Your task to perform on an android device: change timer sound Image 0: 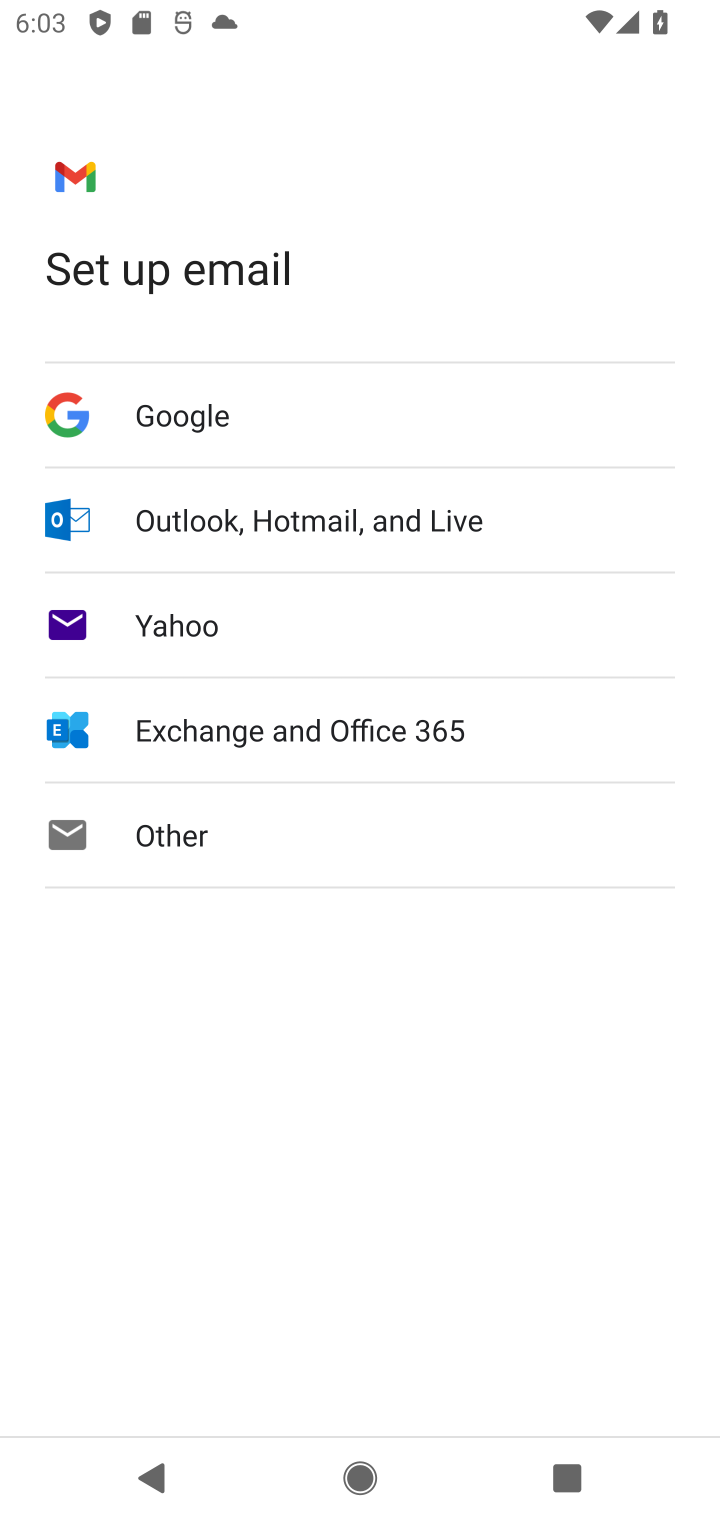
Step 0: press home button
Your task to perform on an android device: change timer sound Image 1: 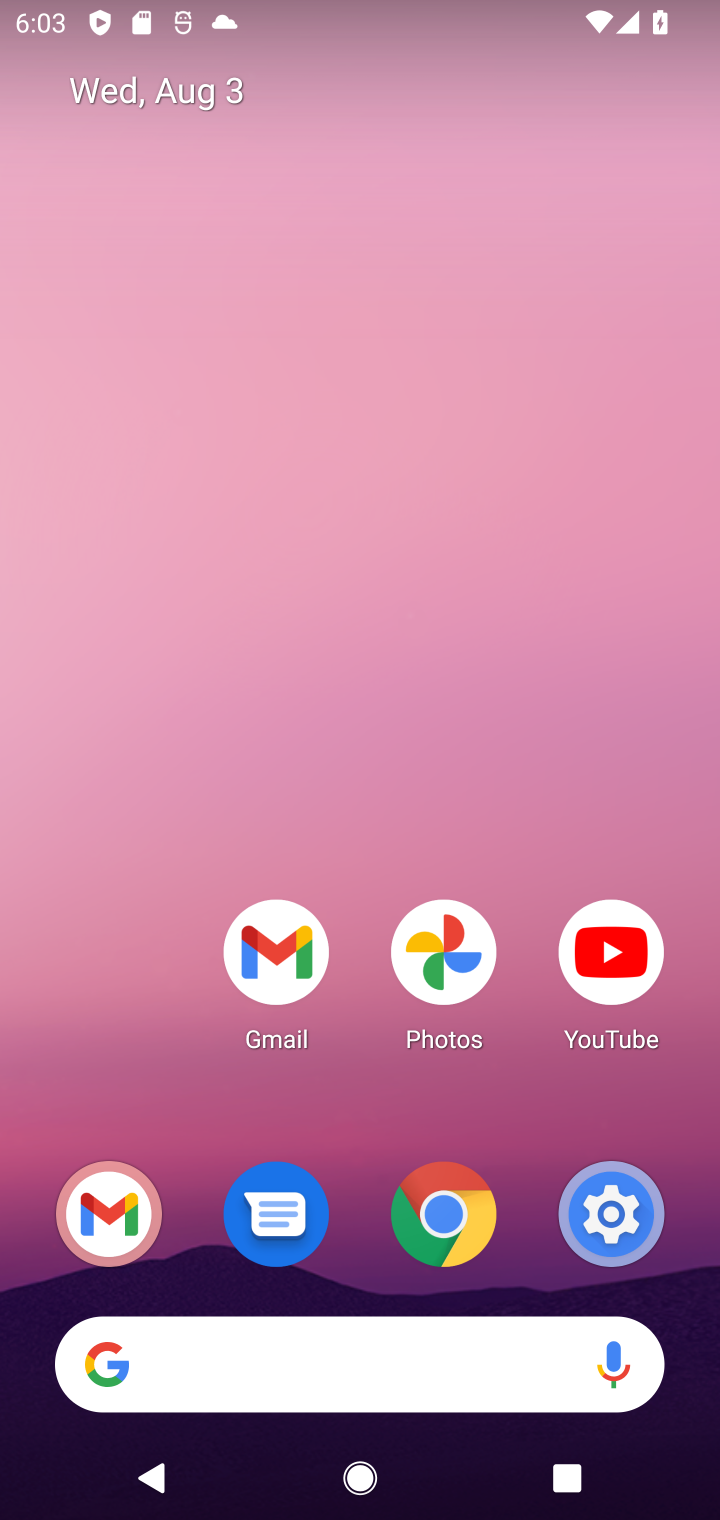
Step 1: drag from (131, 780) to (281, 1)
Your task to perform on an android device: change timer sound Image 2: 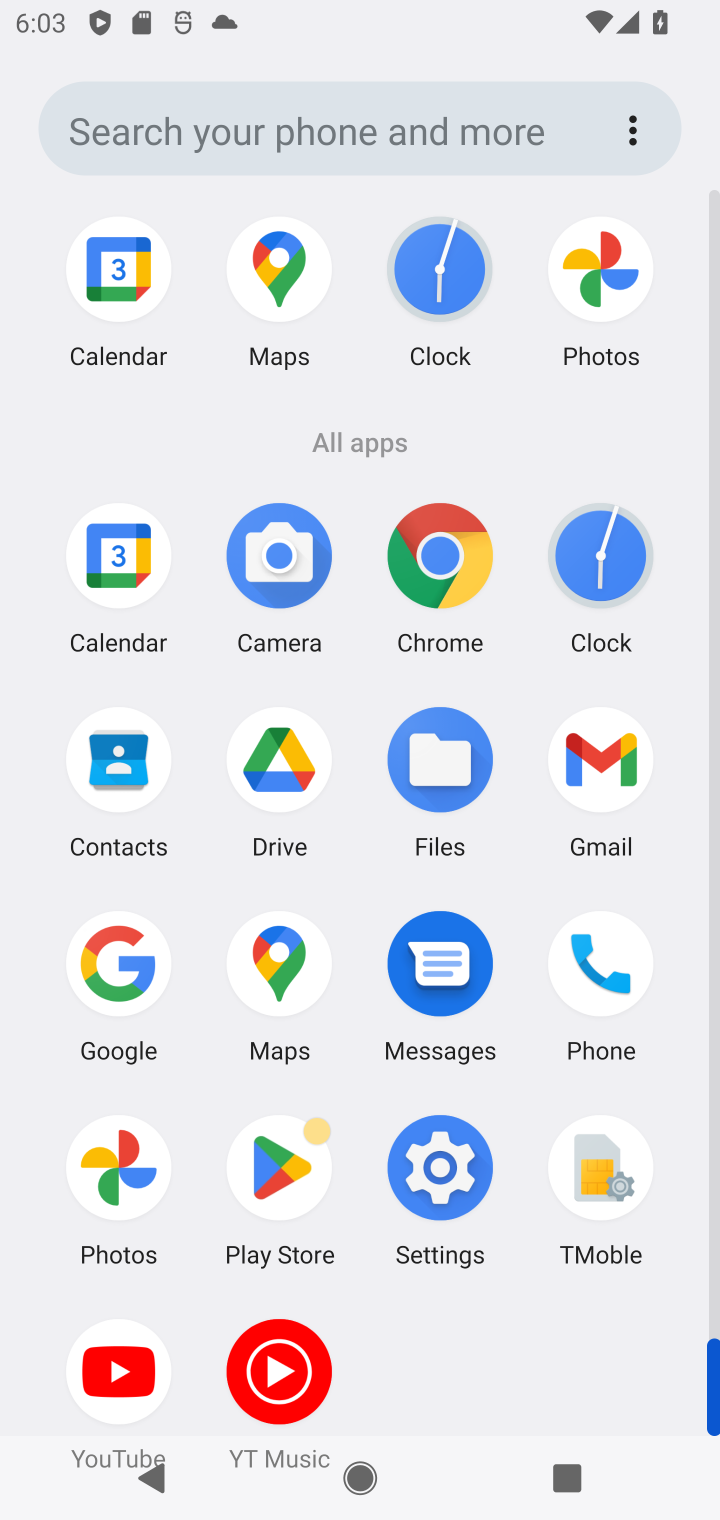
Step 2: click (434, 1187)
Your task to perform on an android device: change timer sound Image 3: 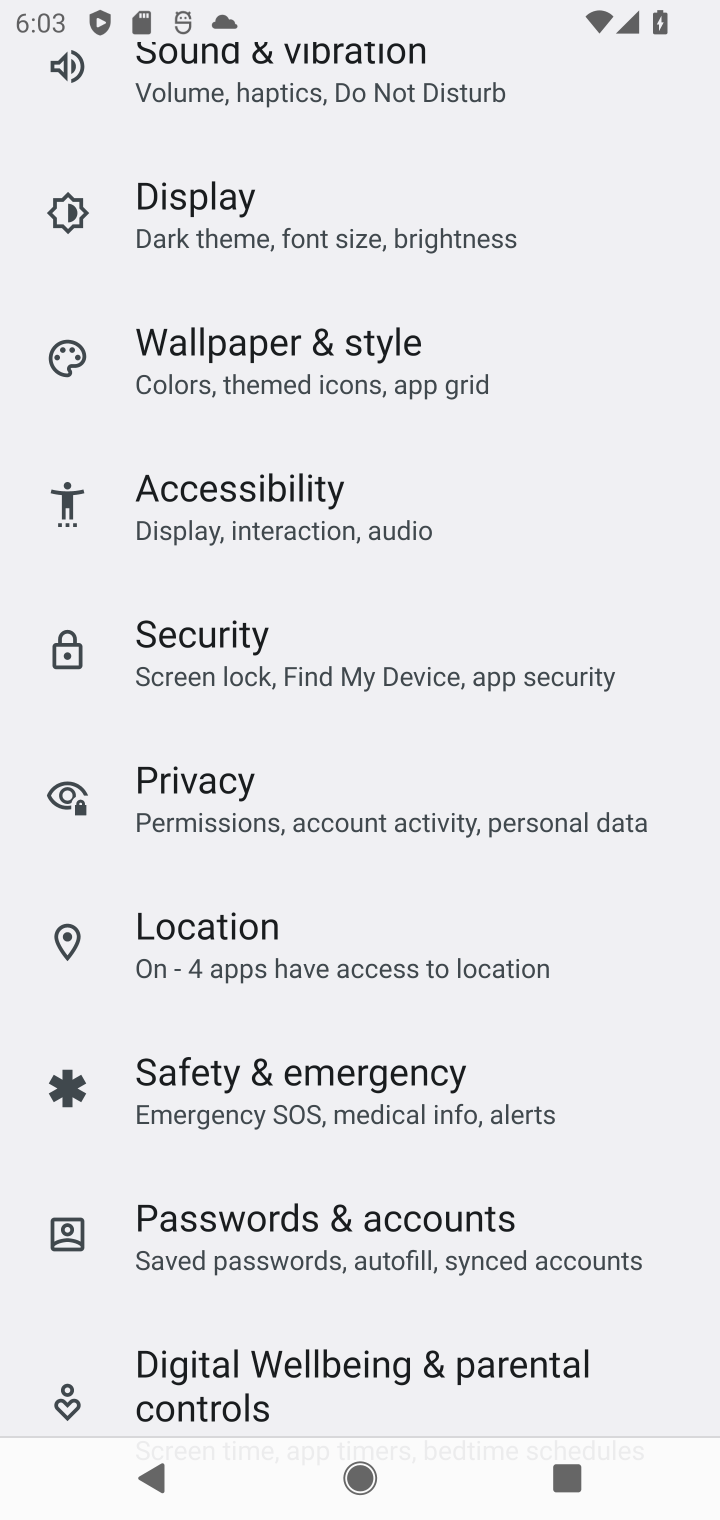
Step 3: drag from (468, 632) to (453, 1355)
Your task to perform on an android device: change timer sound Image 4: 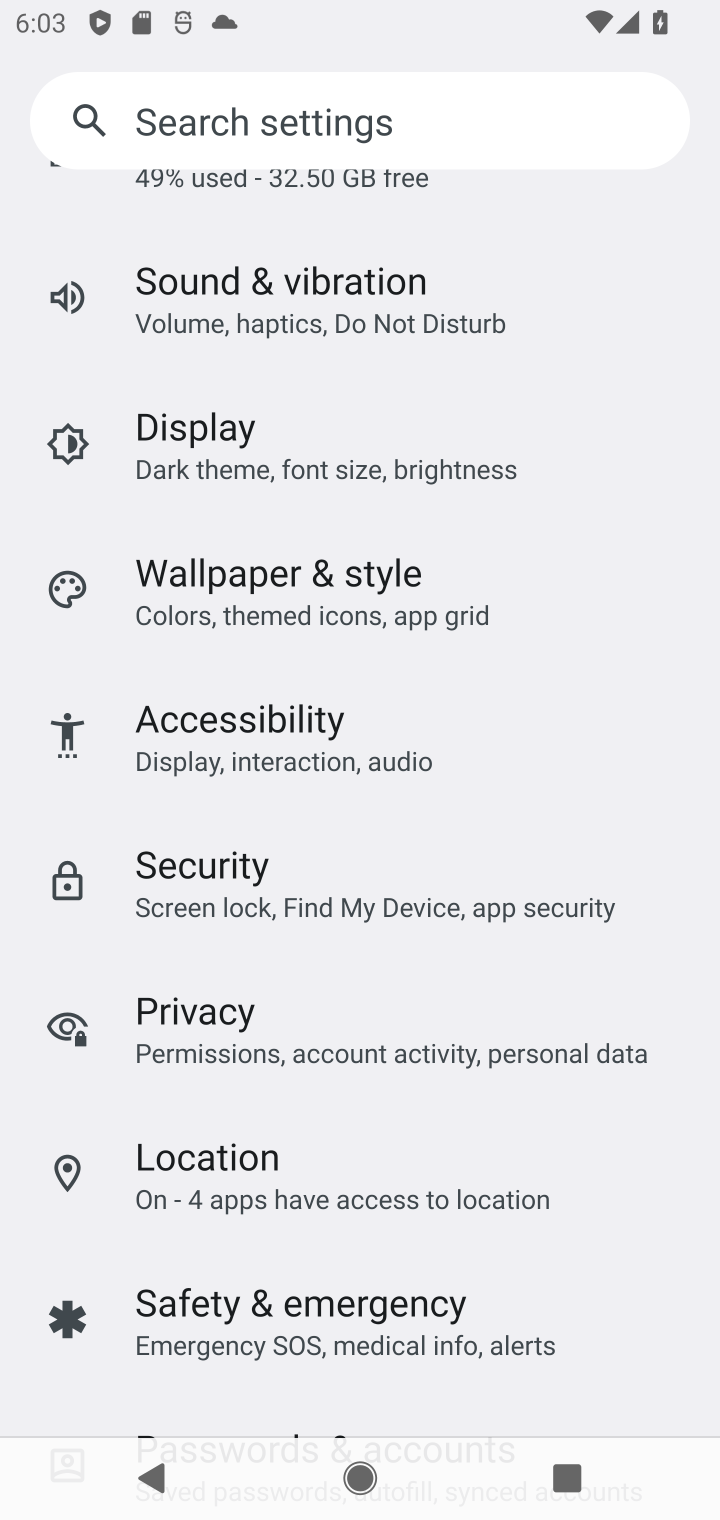
Step 4: drag from (473, 507) to (482, 1323)
Your task to perform on an android device: change timer sound Image 5: 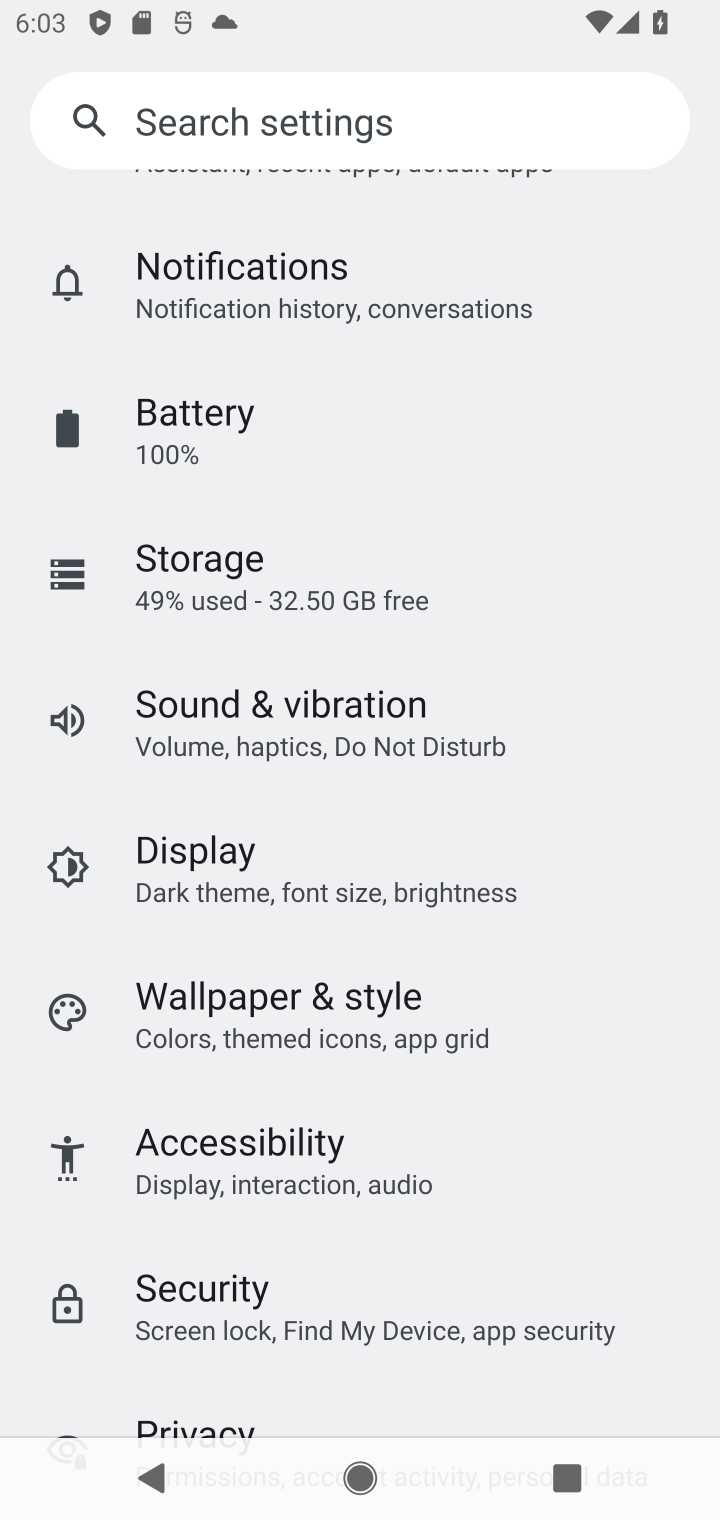
Step 5: drag from (338, 1022) to (449, 375)
Your task to perform on an android device: change timer sound Image 6: 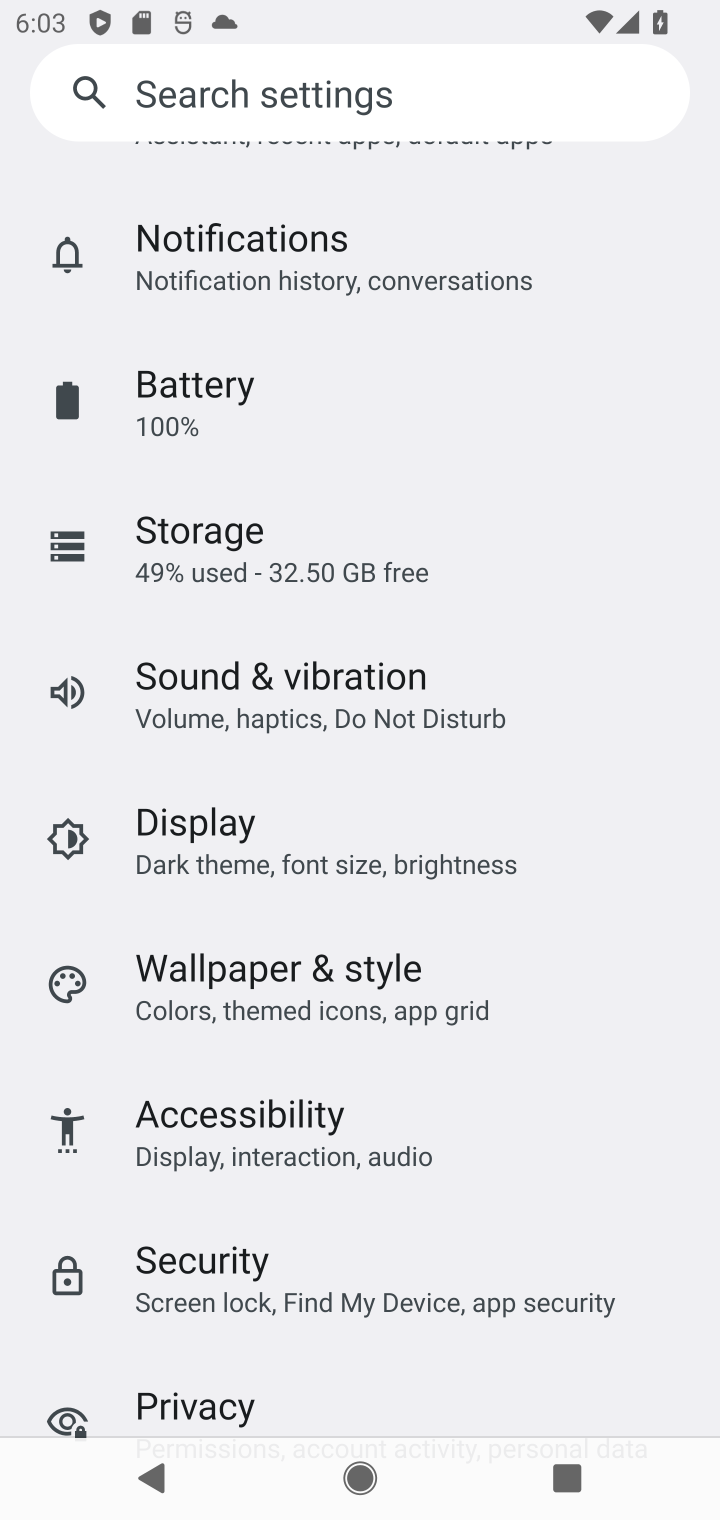
Step 6: drag from (331, 1287) to (530, 237)
Your task to perform on an android device: change timer sound Image 7: 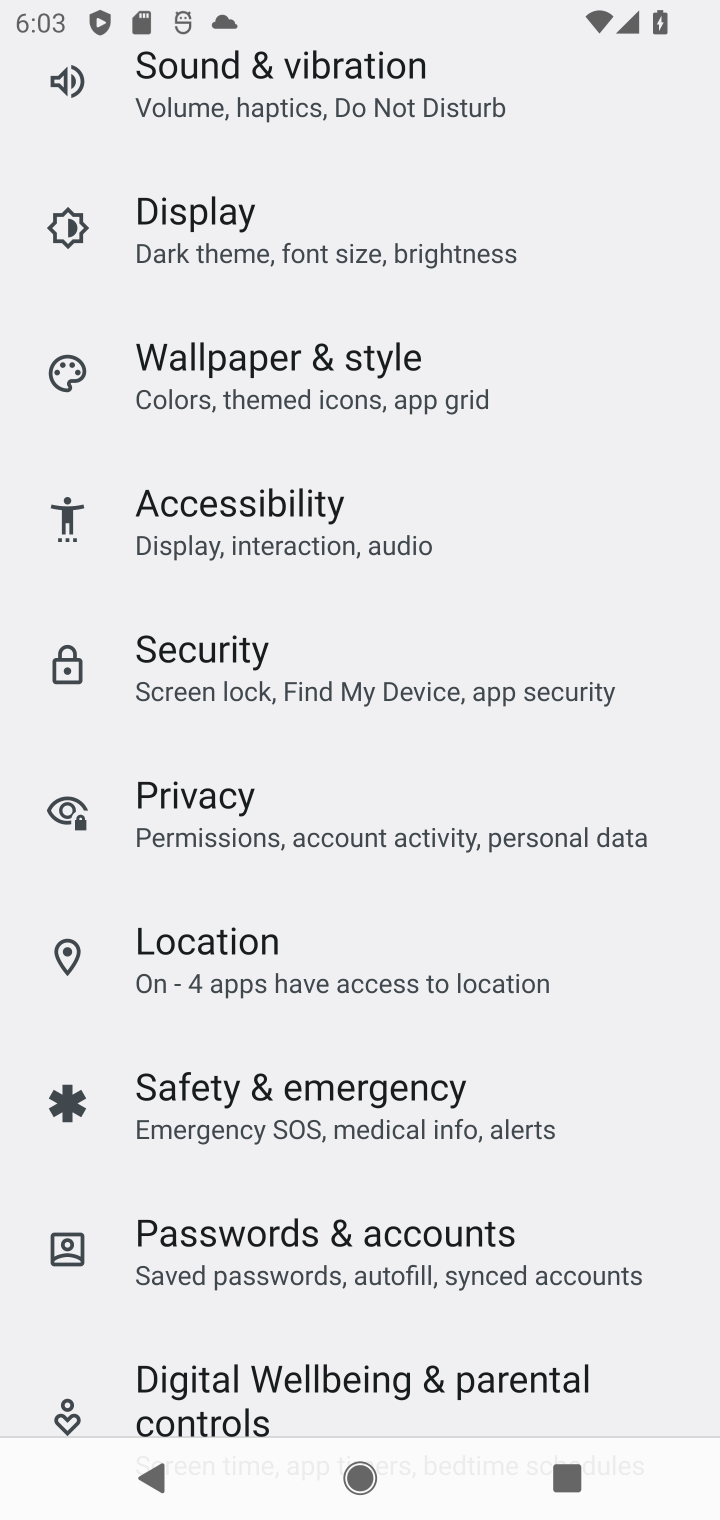
Step 7: drag from (267, 1204) to (445, 120)
Your task to perform on an android device: change timer sound Image 8: 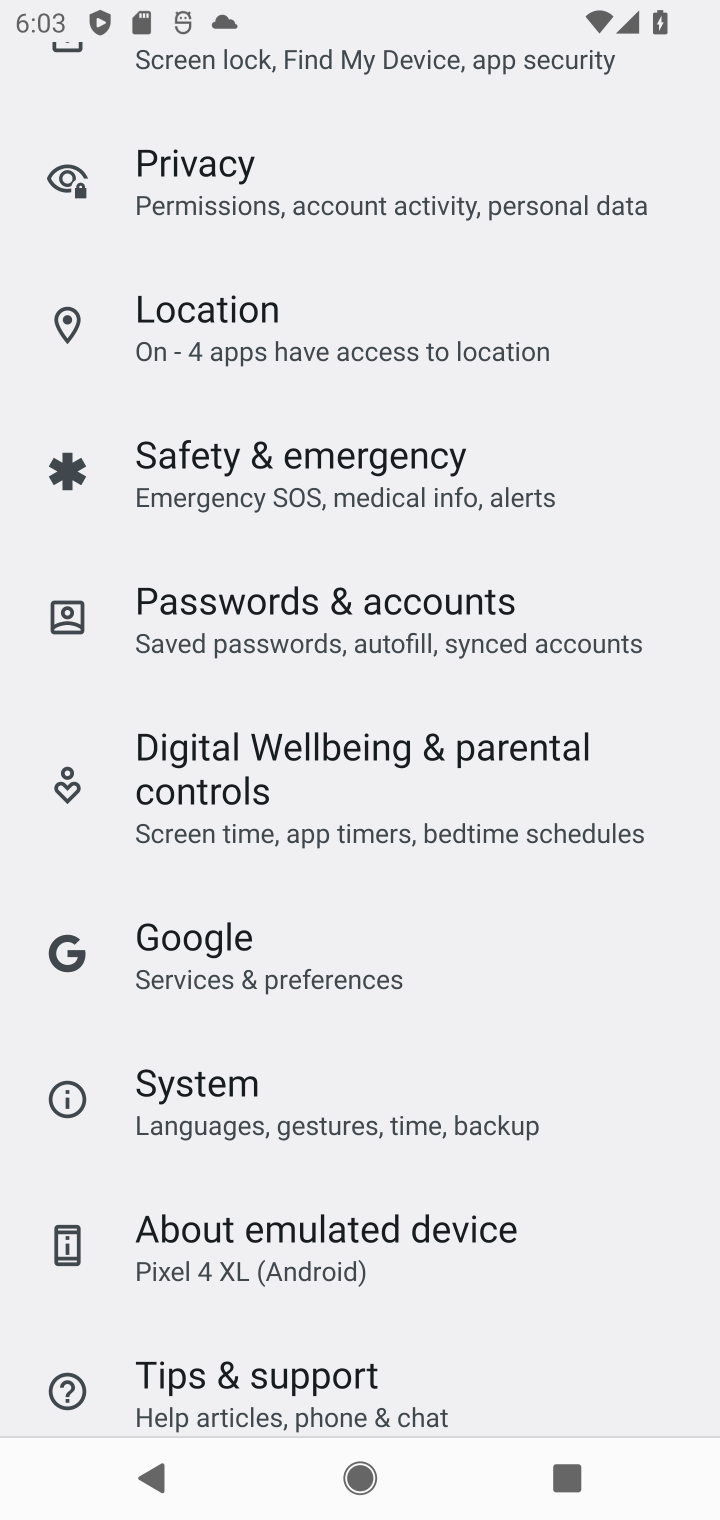
Step 8: drag from (475, 928) to (509, 1446)
Your task to perform on an android device: change timer sound Image 9: 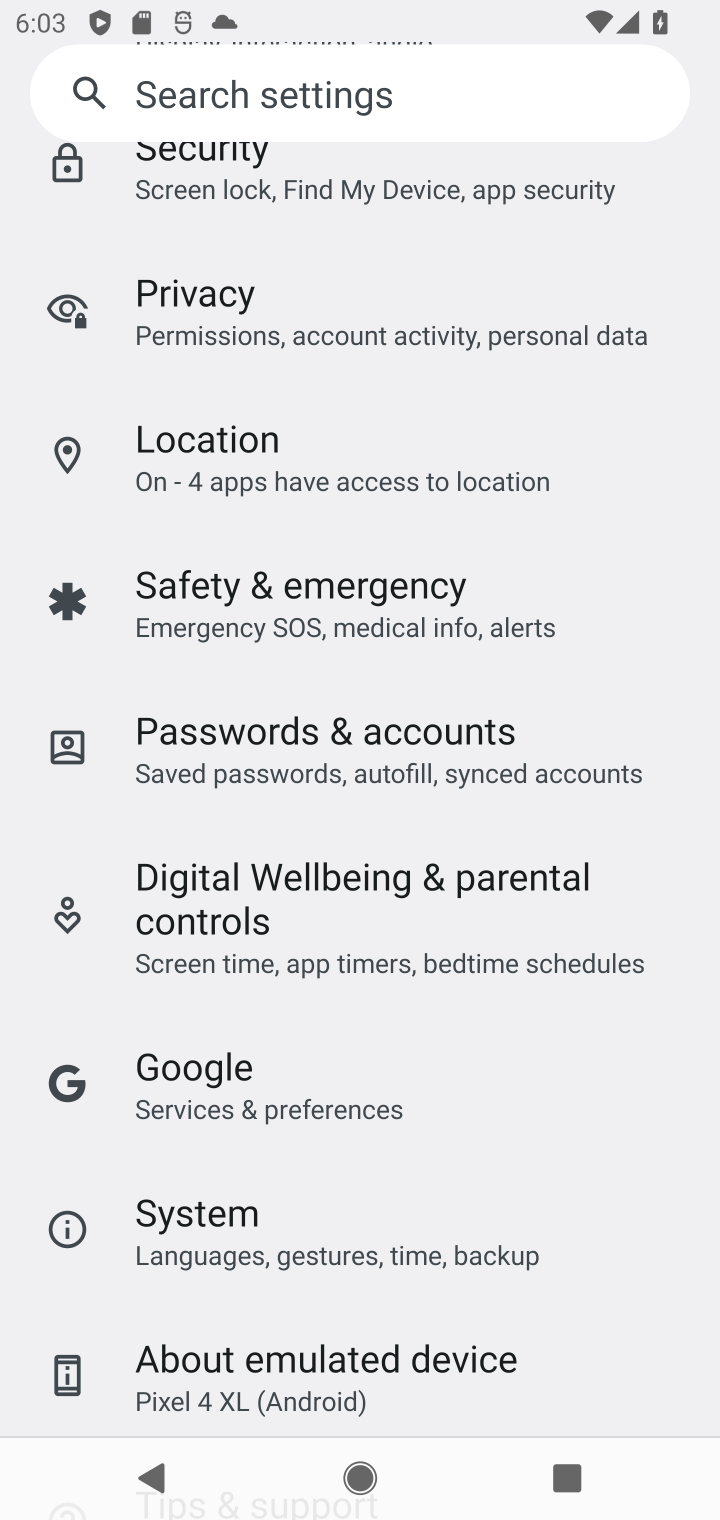
Step 9: drag from (415, 425) to (373, 1461)
Your task to perform on an android device: change timer sound Image 10: 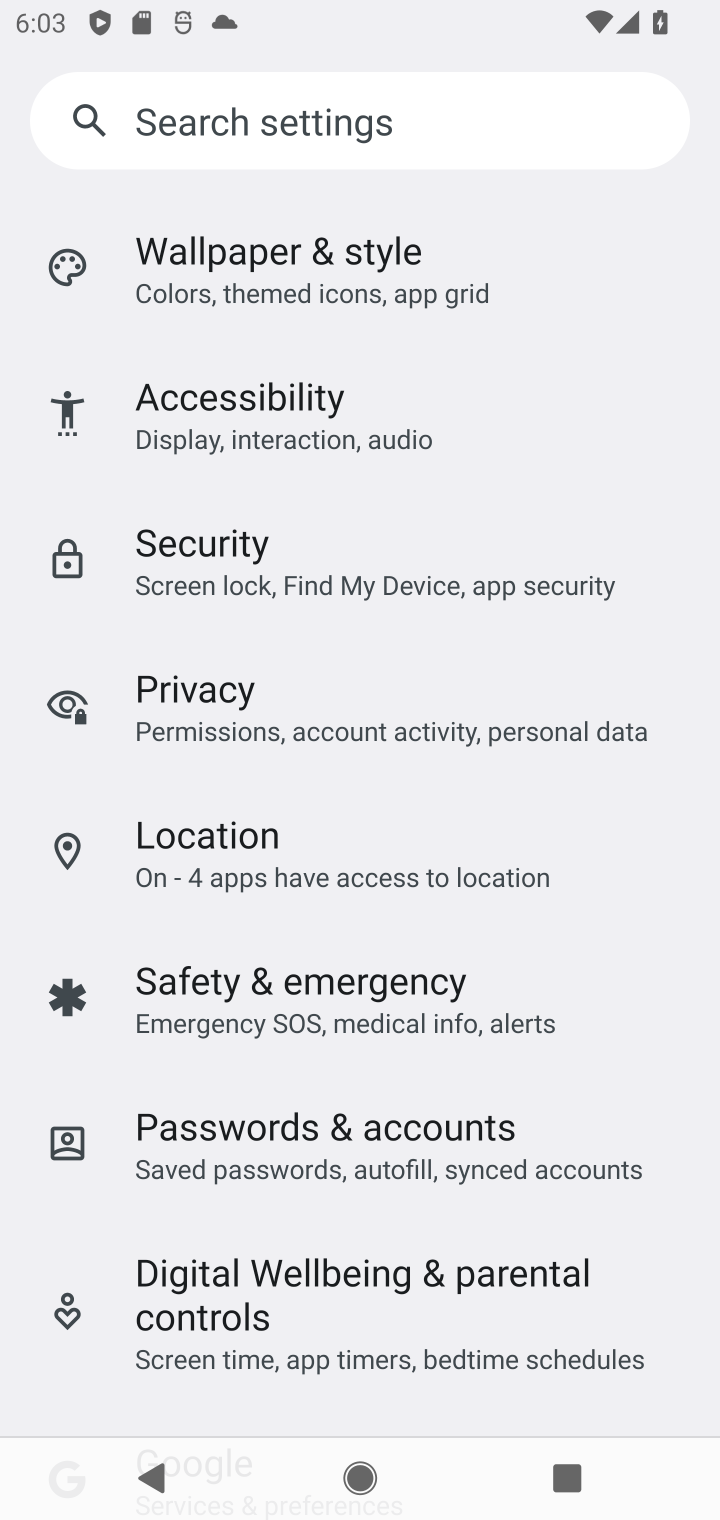
Step 10: drag from (359, 710) to (230, 1515)
Your task to perform on an android device: change timer sound Image 11: 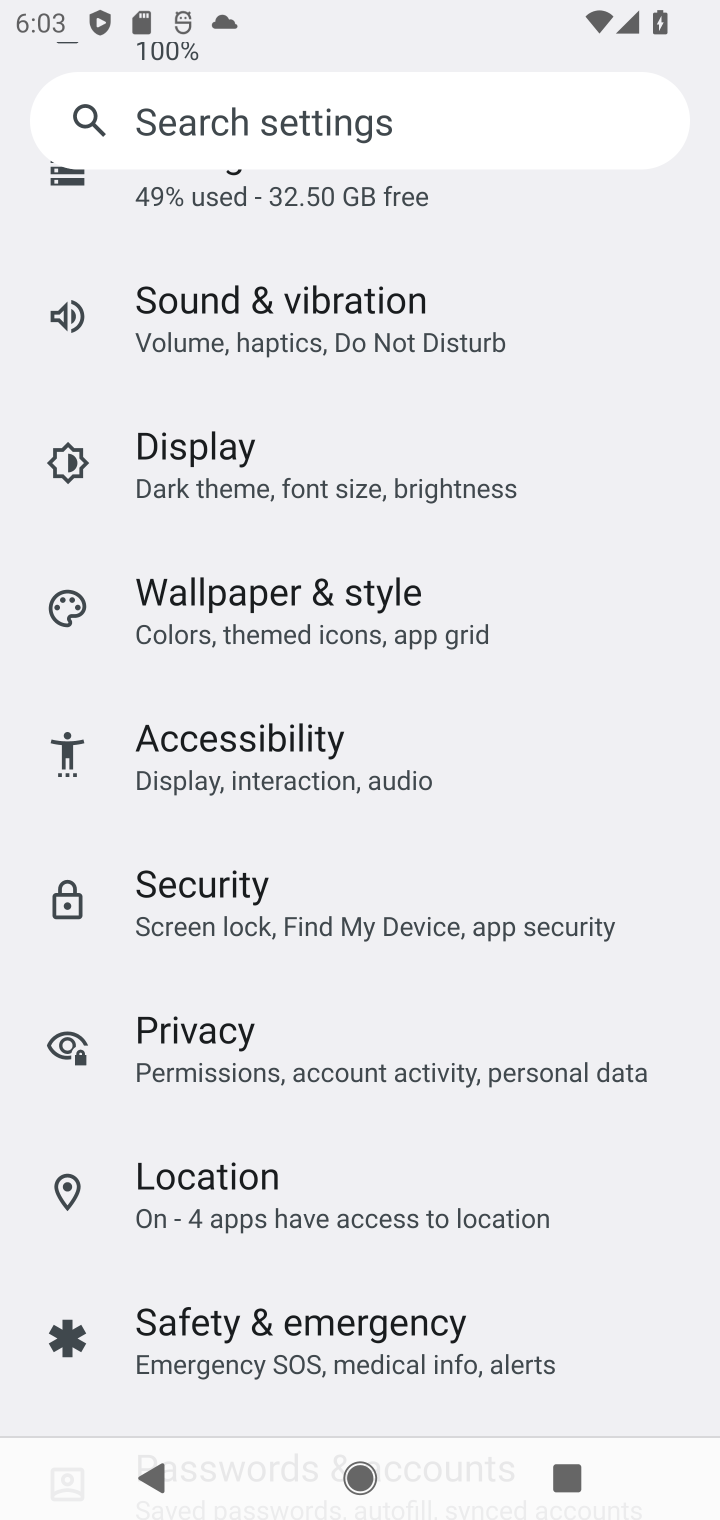
Step 11: drag from (413, 459) to (367, 1487)
Your task to perform on an android device: change timer sound Image 12: 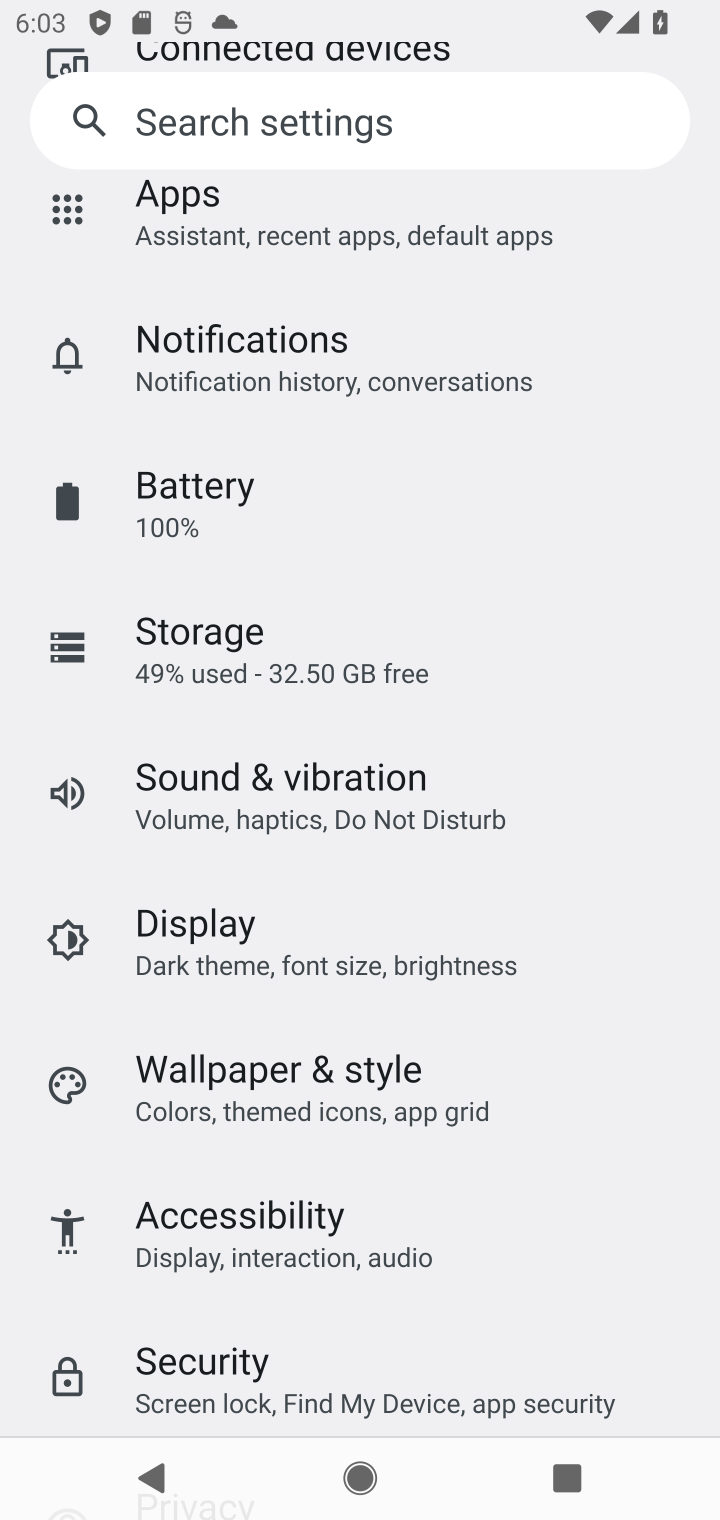
Step 12: drag from (482, 435) to (475, 1461)
Your task to perform on an android device: change timer sound Image 13: 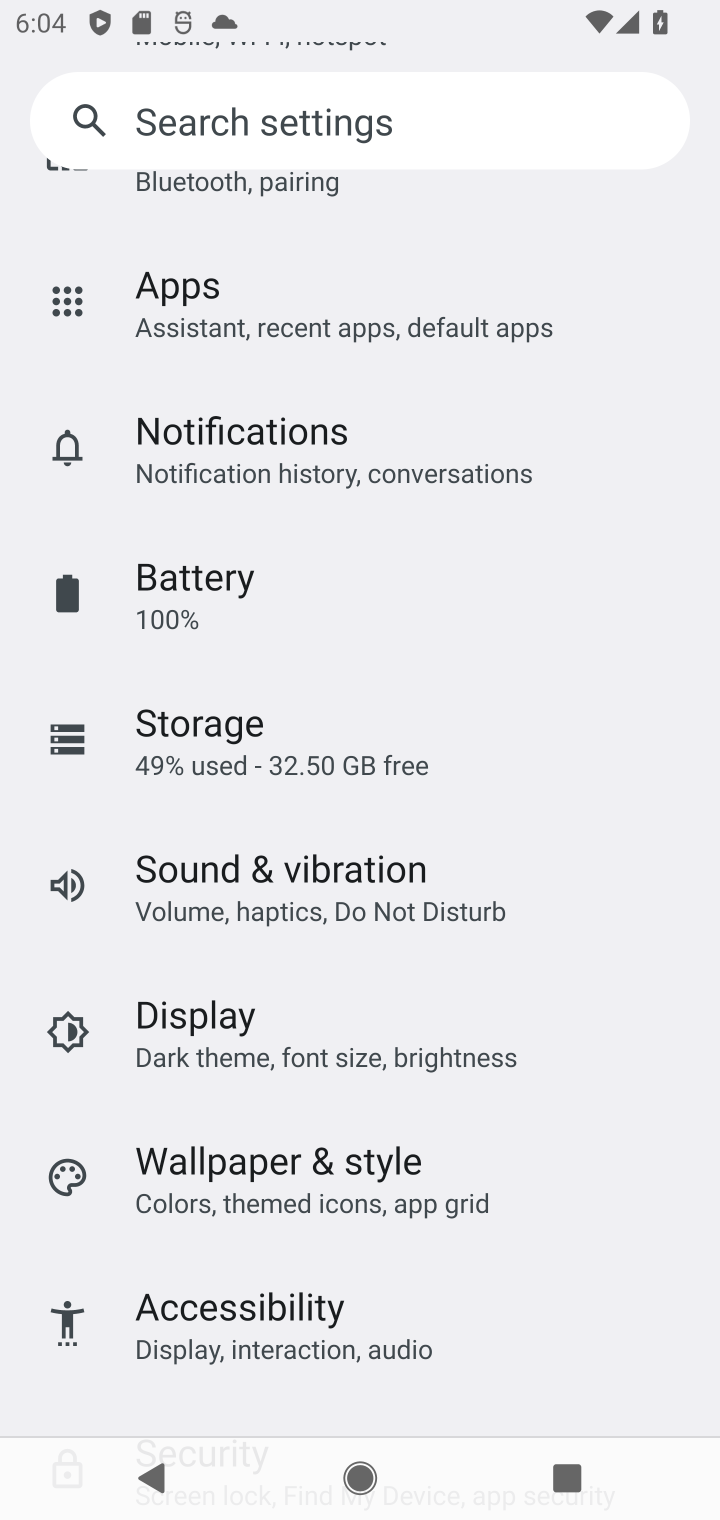
Step 13: drag from (451, 521) to (344, 1481)
Your task to perform on an android device: change timer sound Image 14: 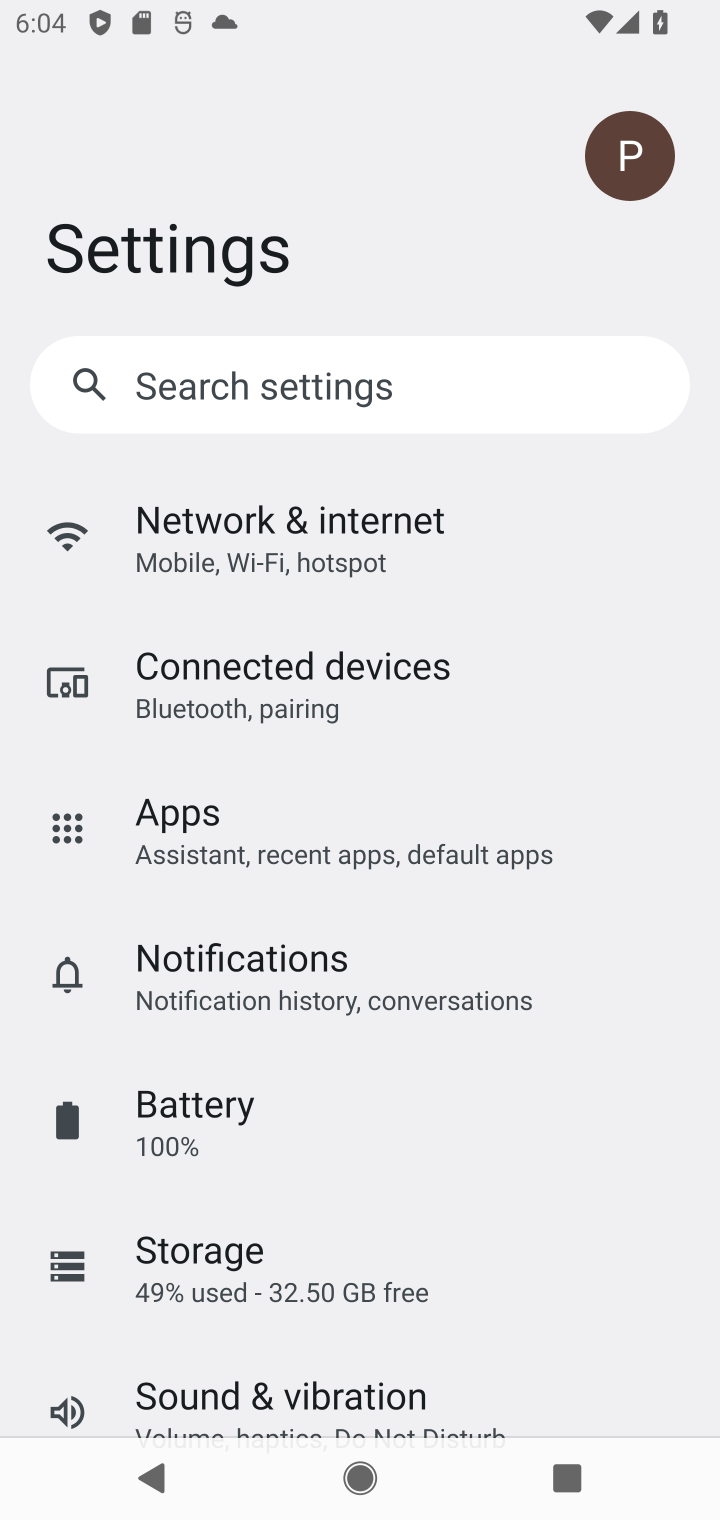
Step 14: drag from (542, 495) to (420, 1452)
Your task to perform on an android device: change timer sound Image 15: 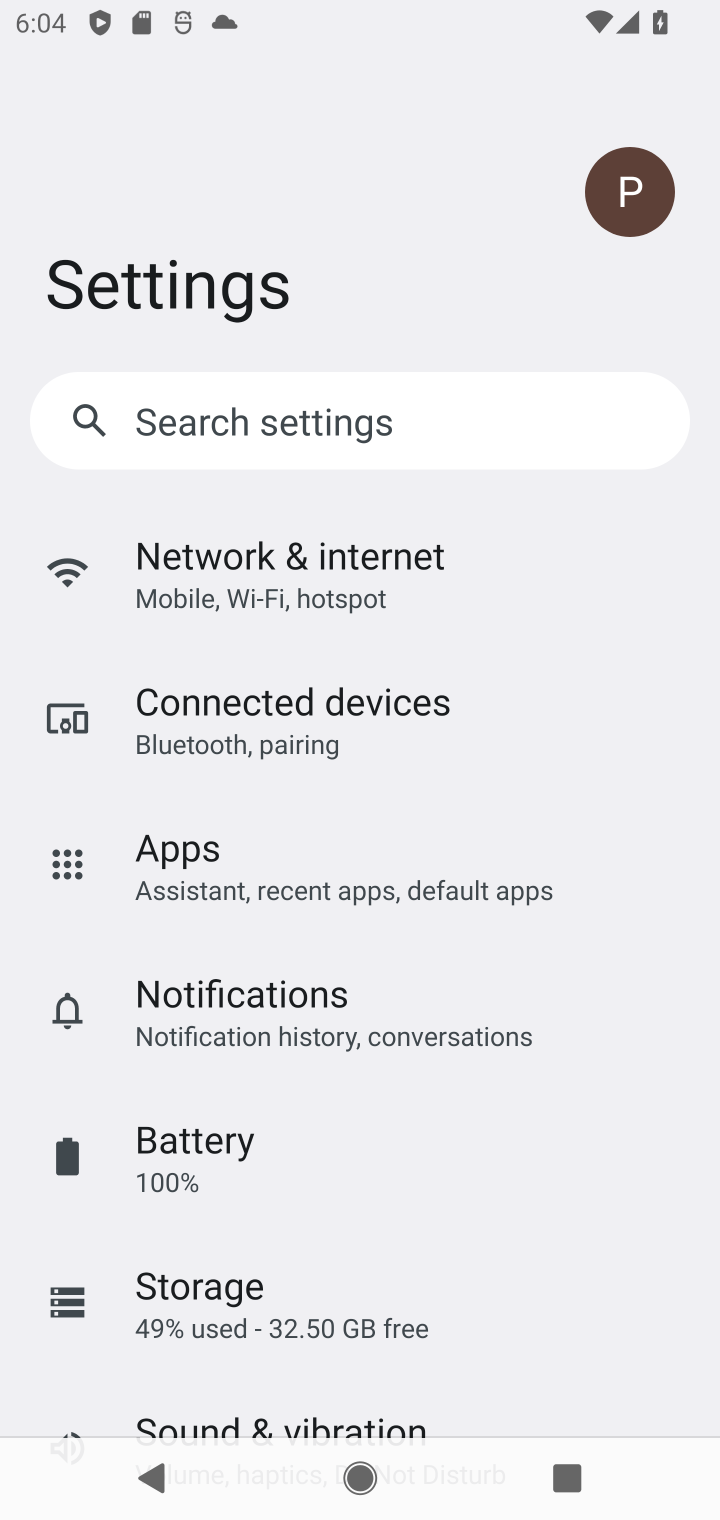
Step 15: drag from (337, 1242) to (524, 308)
Your task to perform on an android device: change timer sound Image 16: 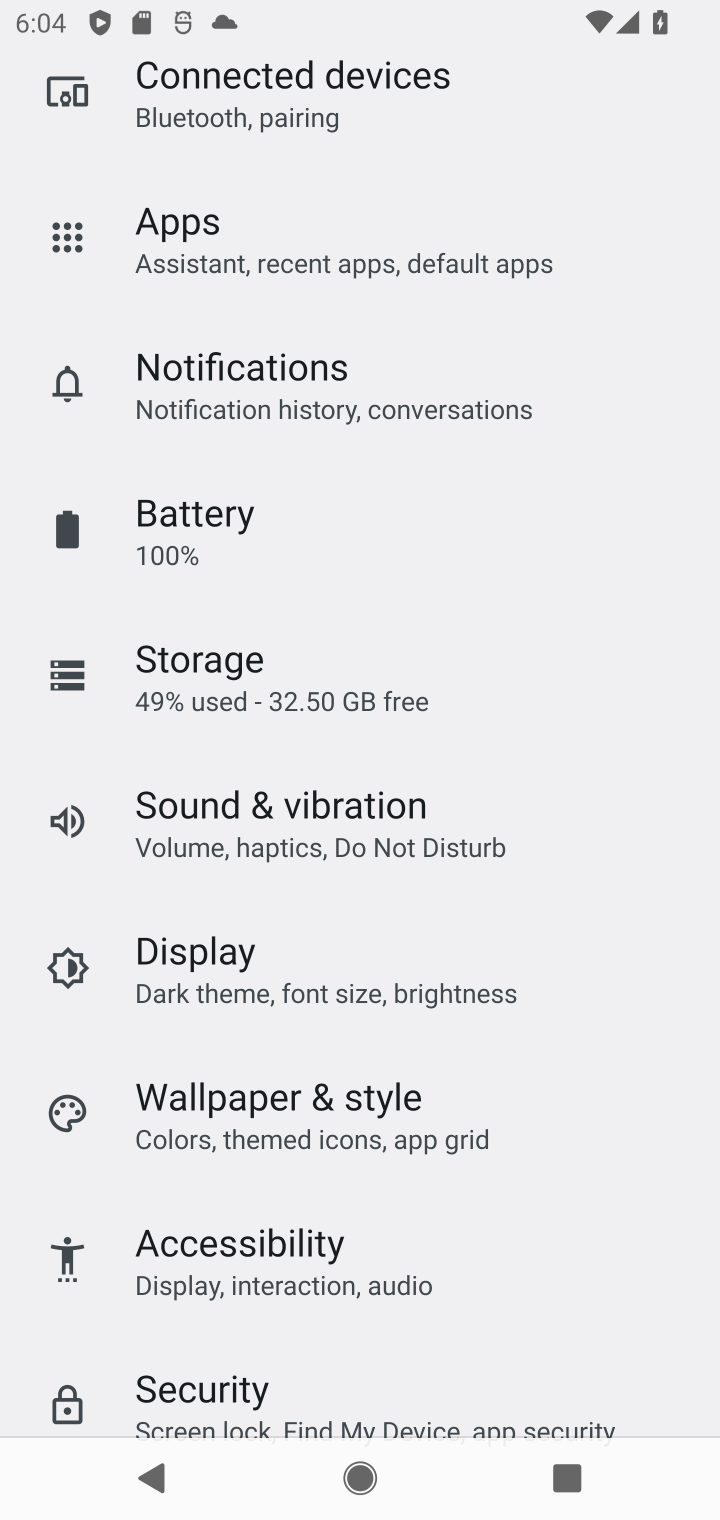
Step 16: drag from (388, 1367) to (551, 240)
Your task to perform on an android device: change timer sound Image 17: 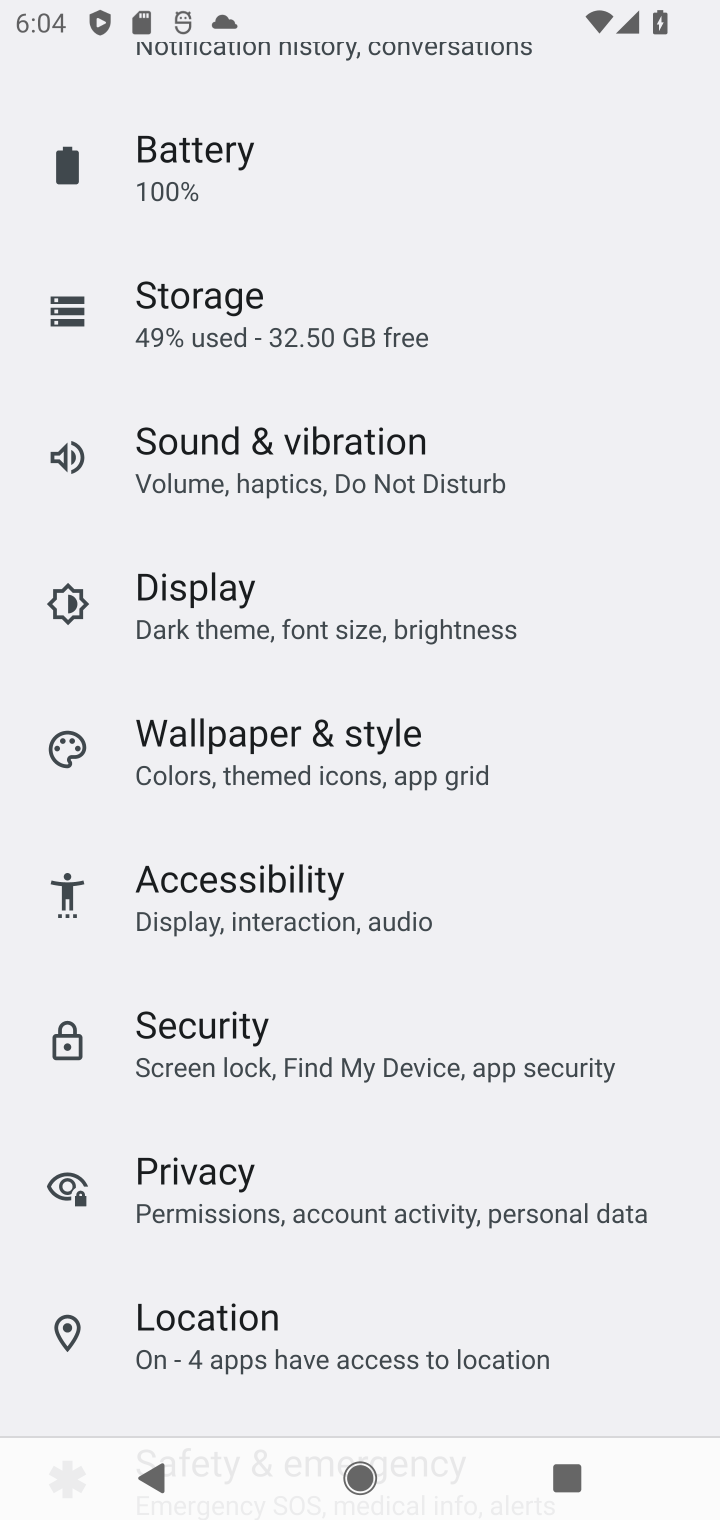
Step 17: drag from (358, 1249) to (487, 218)
Your task to perform on an android device: change timer sound Image 18: 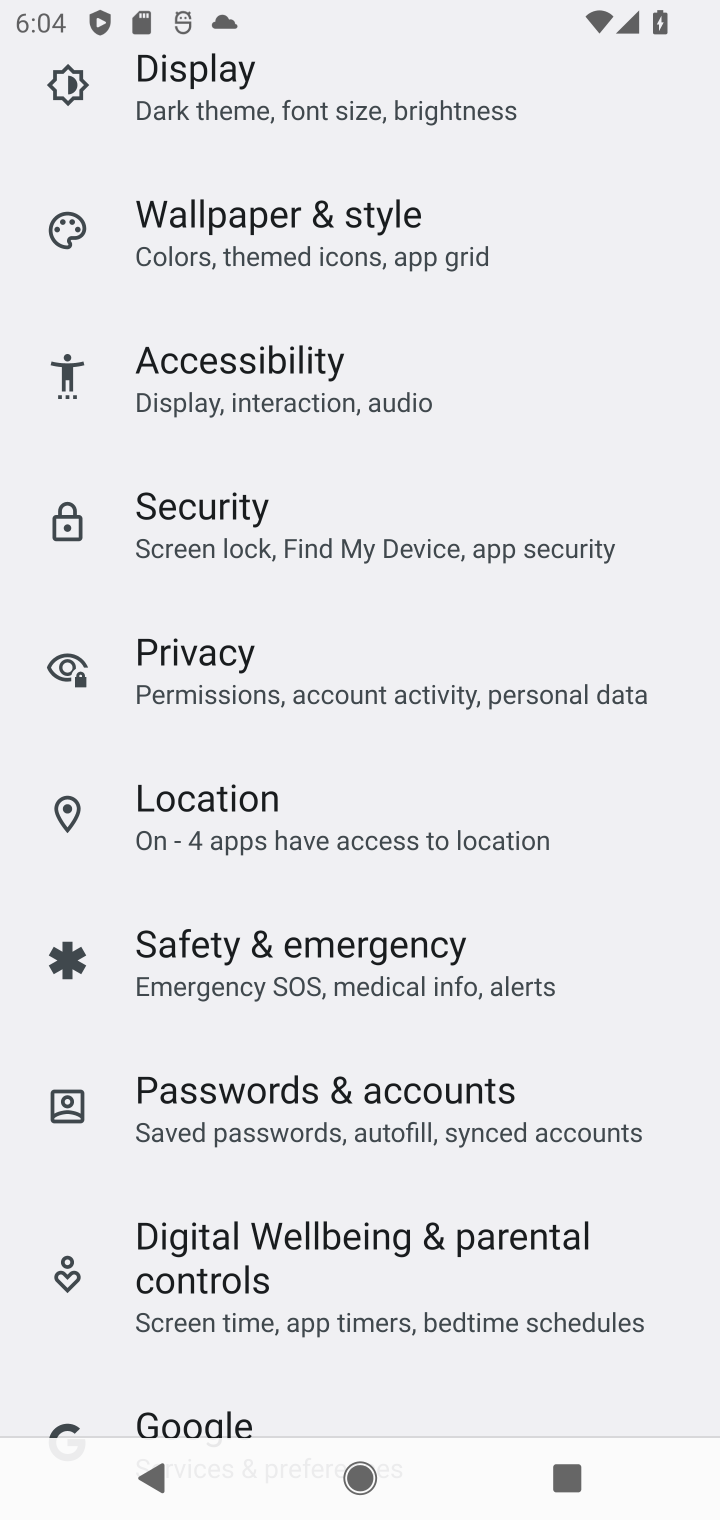
Step 18: drag from (352, 1211) to (473, 189)
Your task to perform on an android device: change timer sound Image 19: 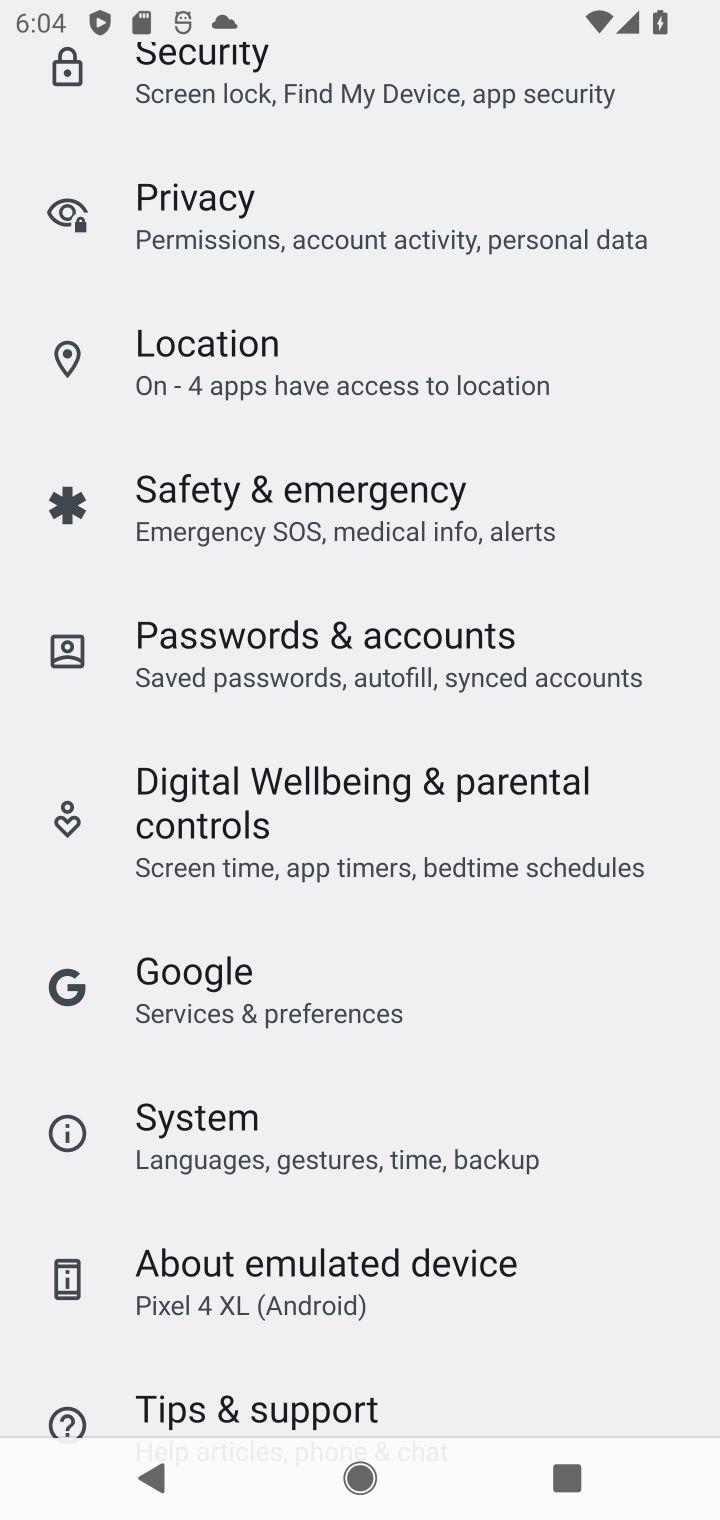
Step 19: drag from (215, 1316) to (394, 231)
Your task to perform on an android device: change timer sound Image 20: 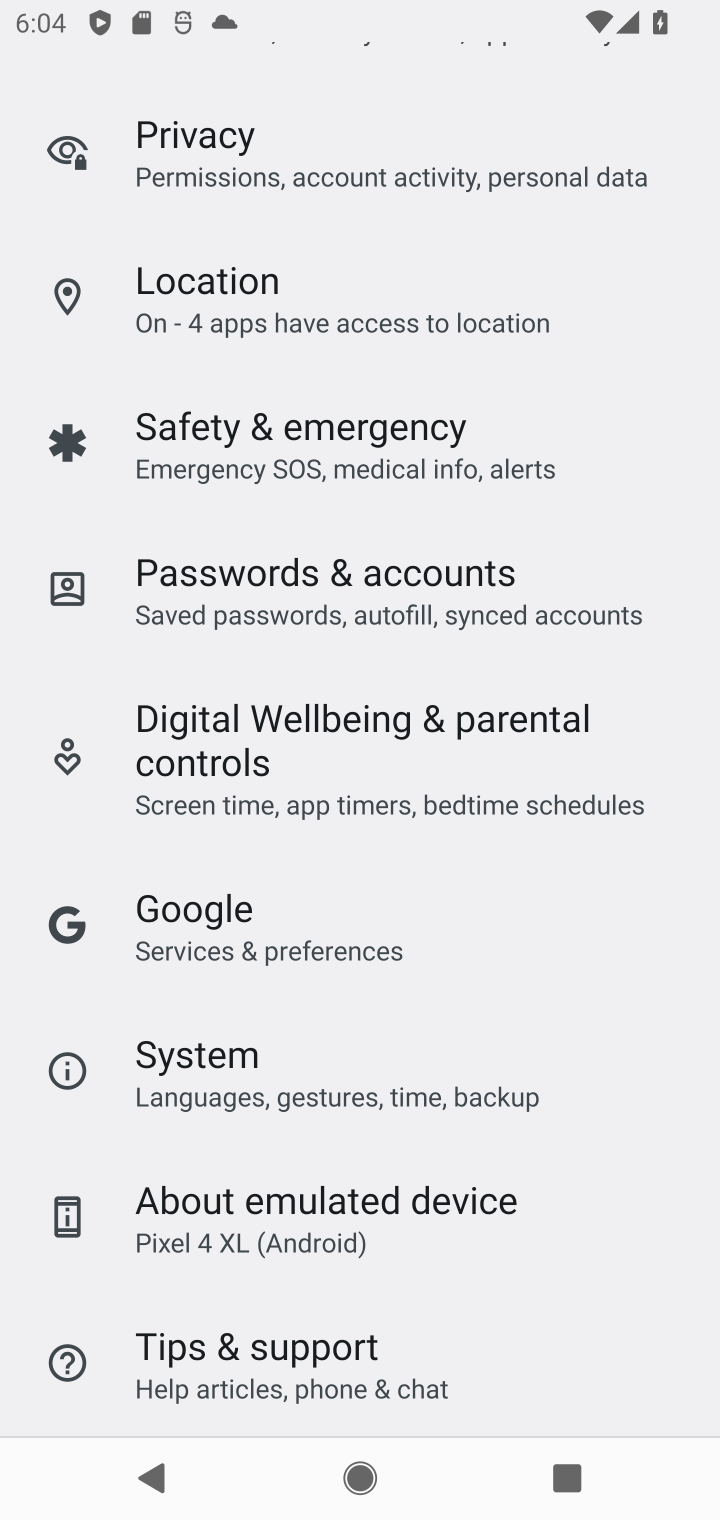
Step 20: drag from (303, 1256) to (419, 49)
Your task to perform on an android device: change timer sound Image 21: 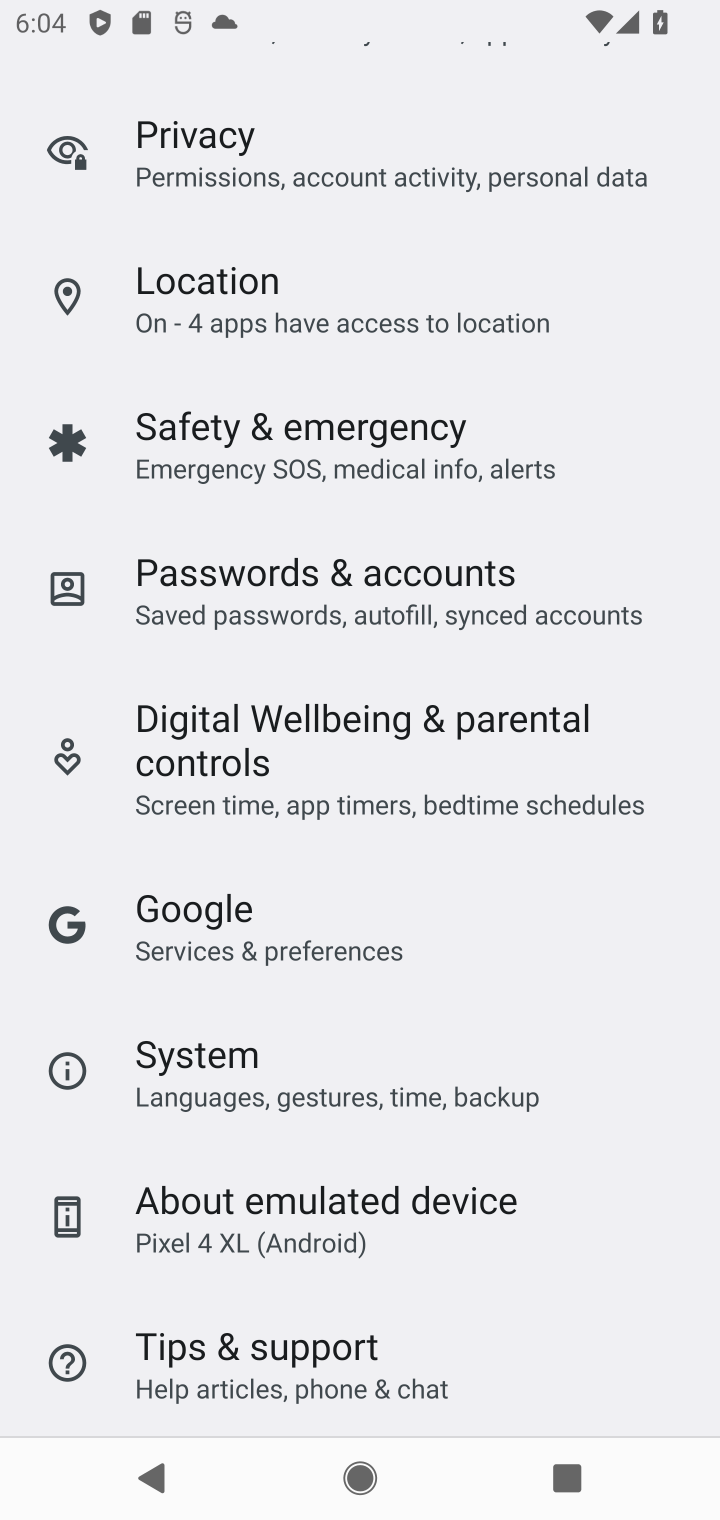
Step 21: drag from (476, 480) to (478, 1493)
Your task to perform on an android device: change timer sound Image 22: 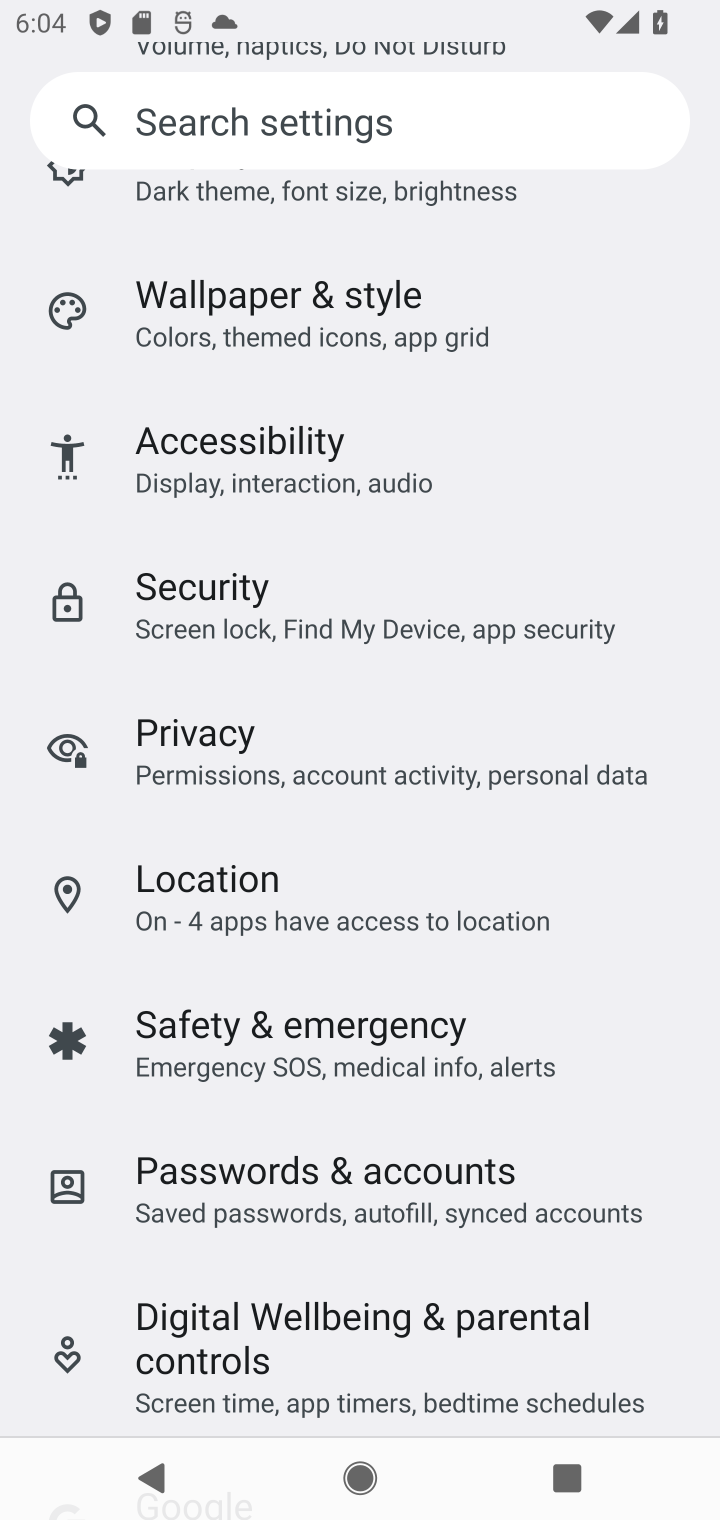
Step 22: drag from (464, 262) to (357, 1376)
Your task to perform on an android device: change timer sound Image 23: 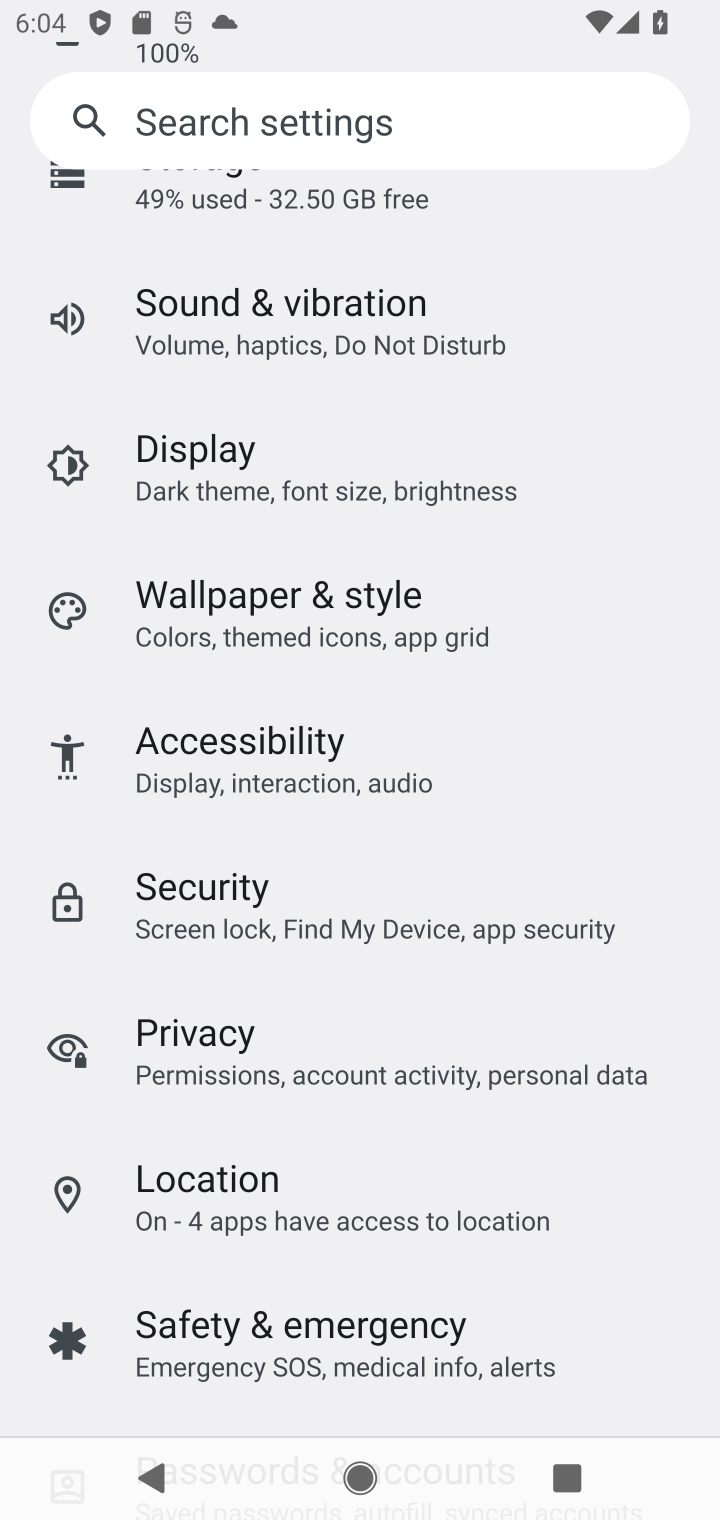
Step 23: drag from (309, 1053) to (351, 1511)
Your task to perform on an android device: change timer sound Image 24: 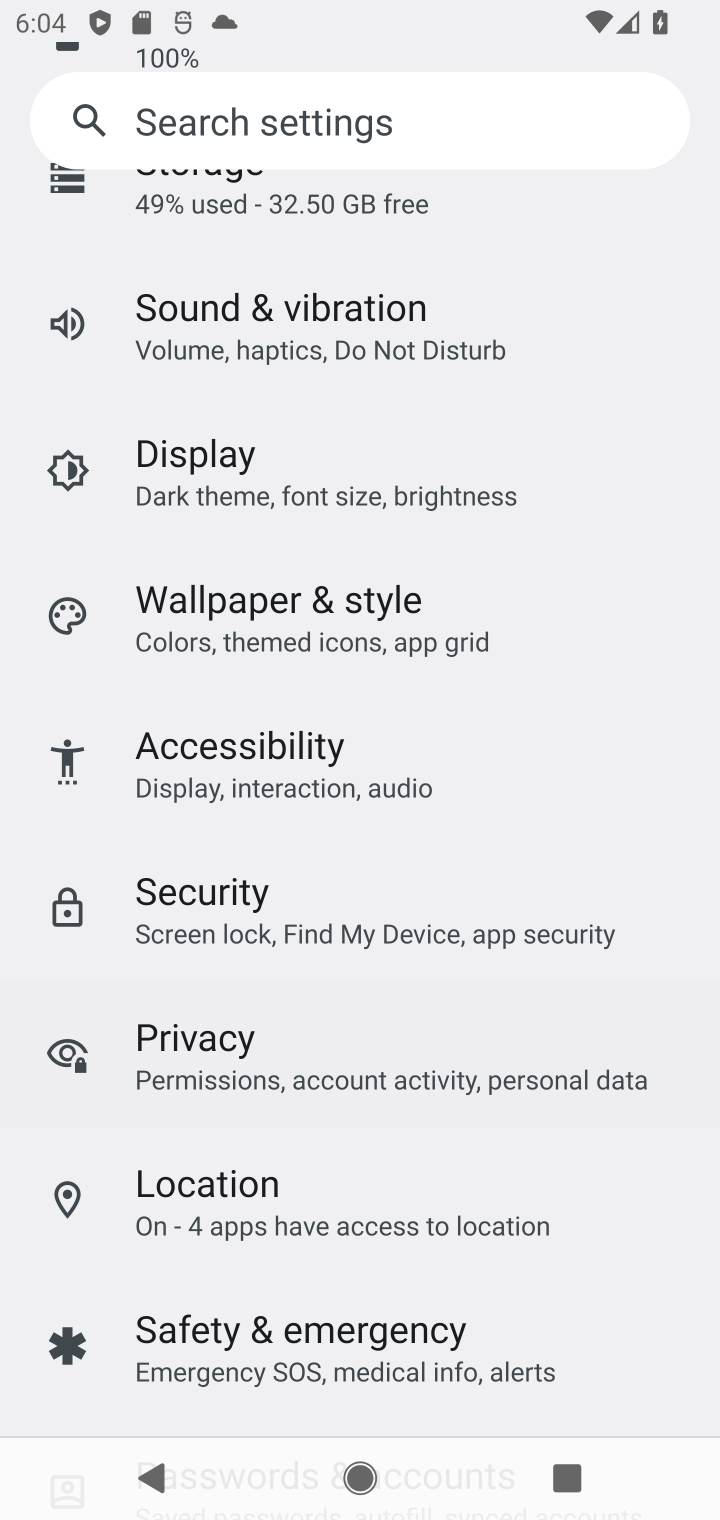
Step 24: drag from (454, 406) to (435, 1501)
Your task to perform on an android device: change timer sound Image 25: 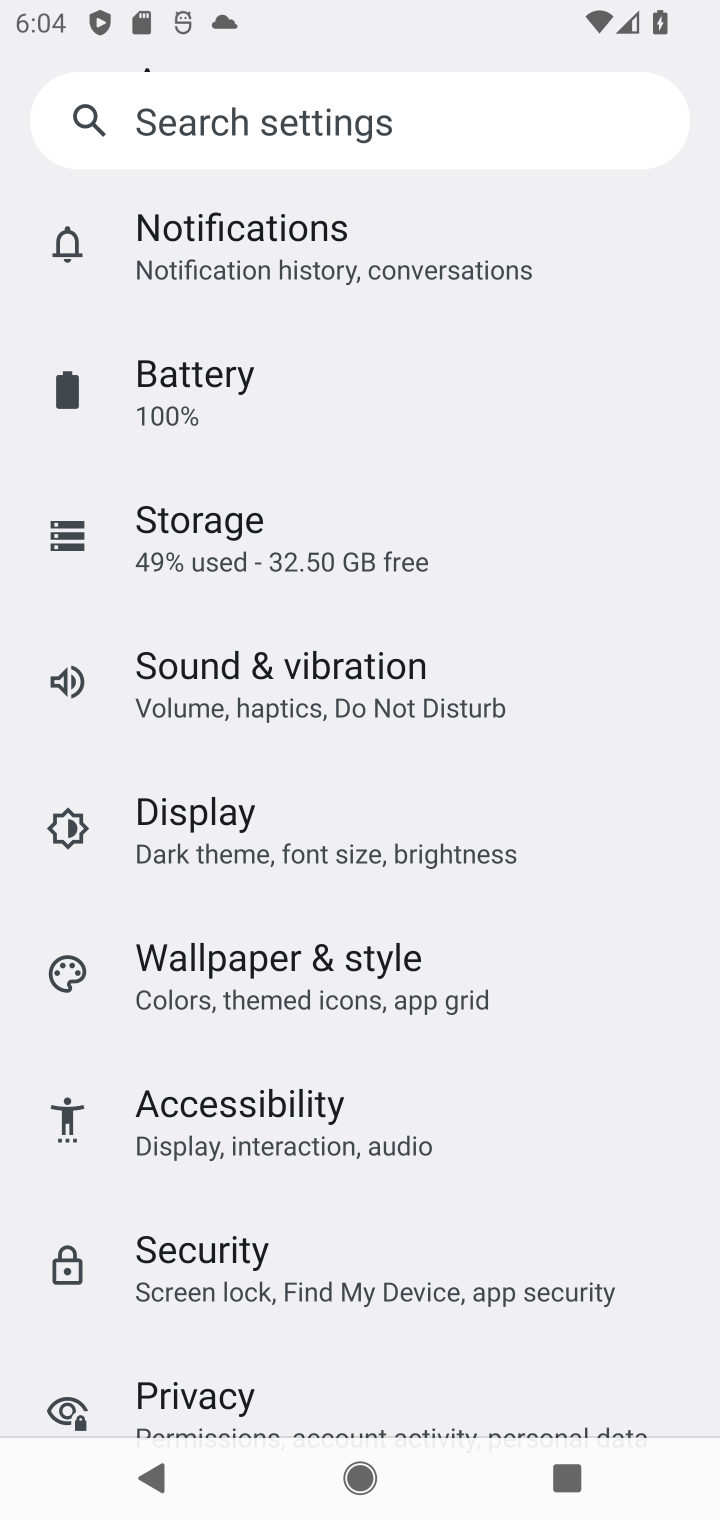
Step 25: drag from (454, 793) to (409, 1484)
Your task to perform on an android device: change timer sound Image 26: 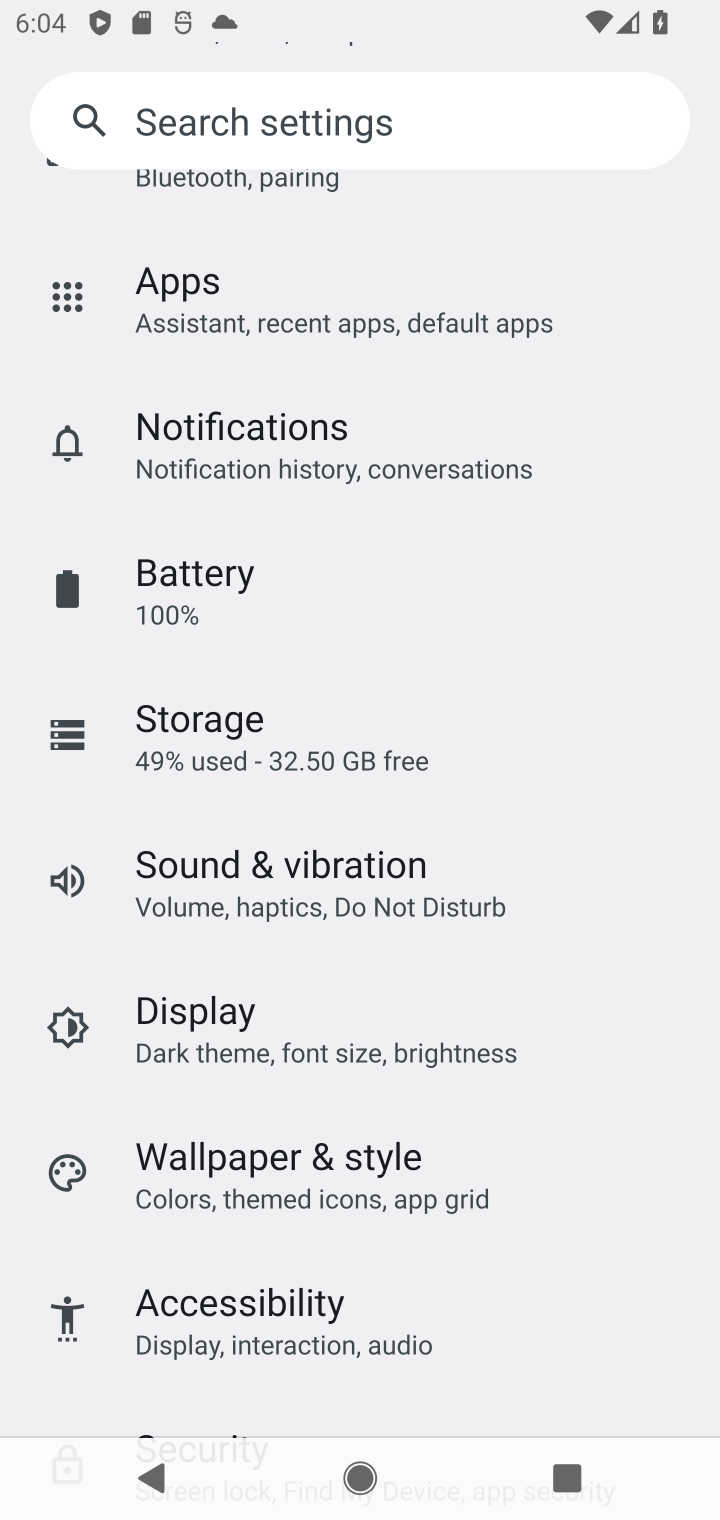
Step 26: drag from (401, 528) to (342, 1499)
Your task to perform on an android device: change timer sound Image 27: 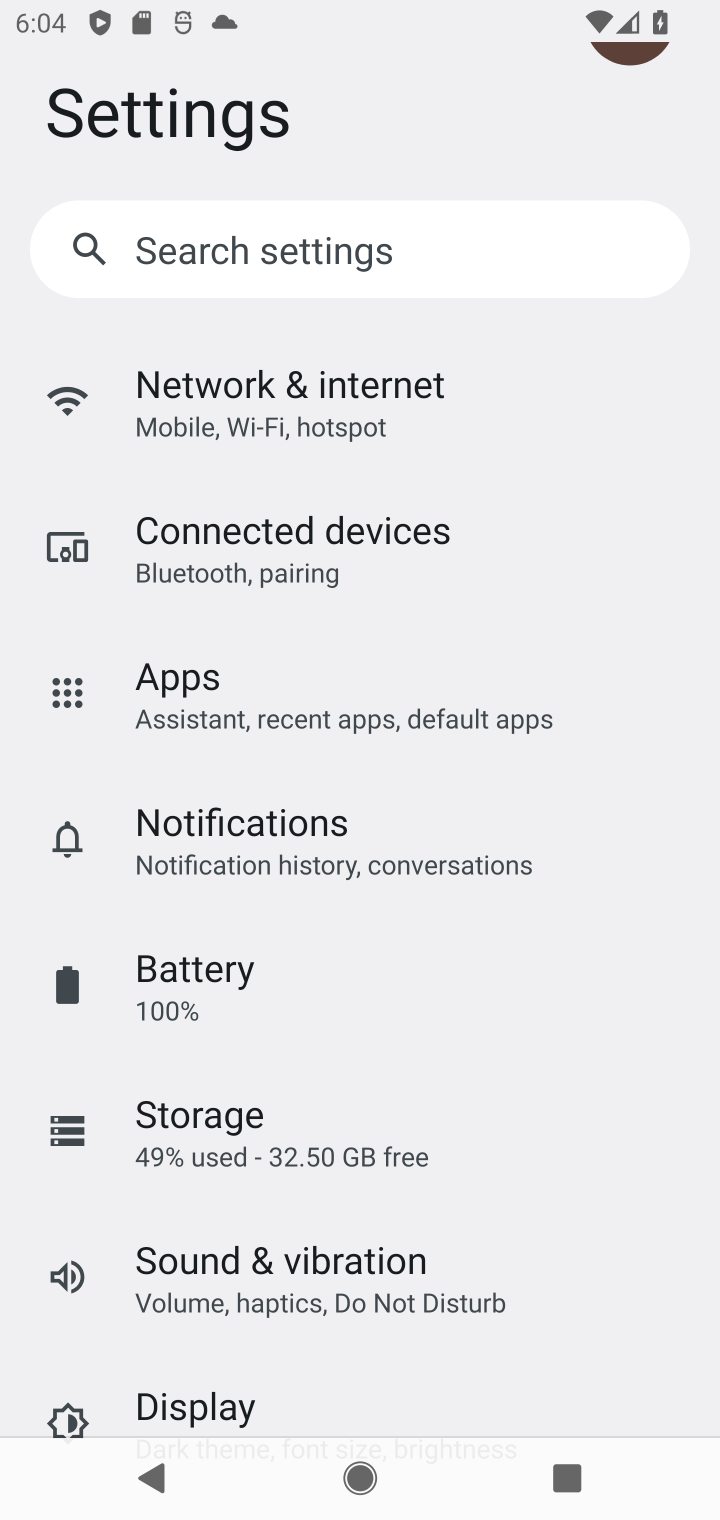
Step 27: drag from (433, 636) to (355, 1435)
Your task to perform on an android device: change timer sound Image 28: 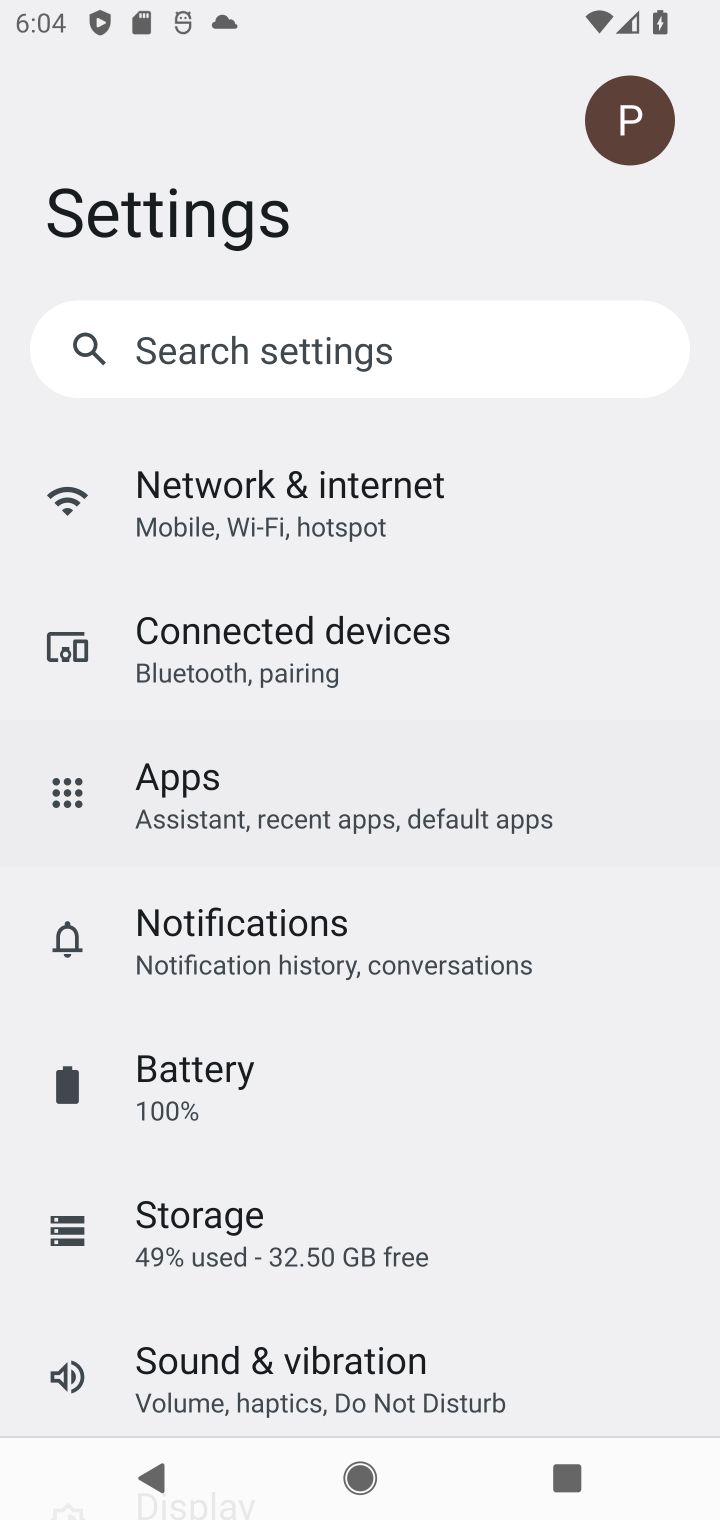
Step 28: press home button
Your task to perform on an android device: change timer sound Image 29: 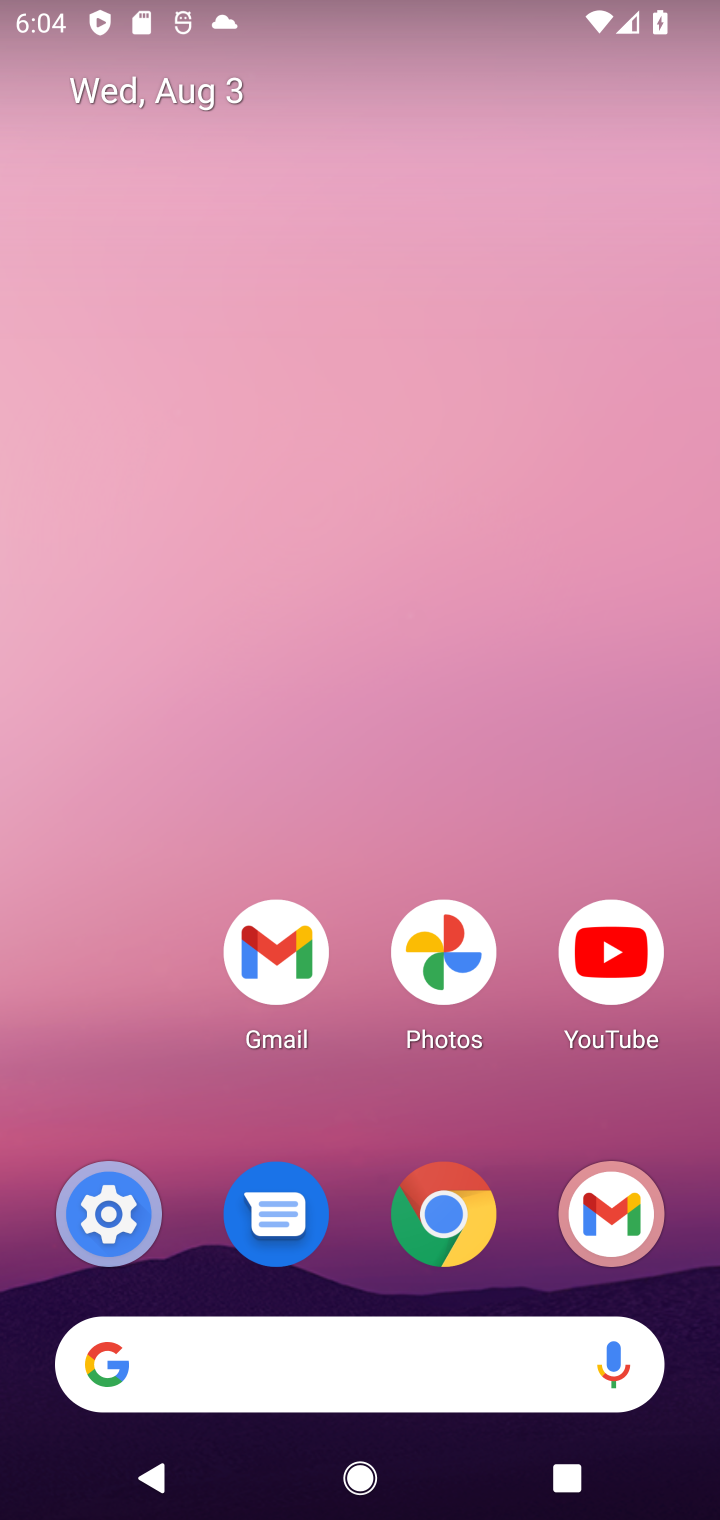
Step 29: drag from (187, 591) to (301, 58)
Your task to perform on an android device: change timer sound Image 30: 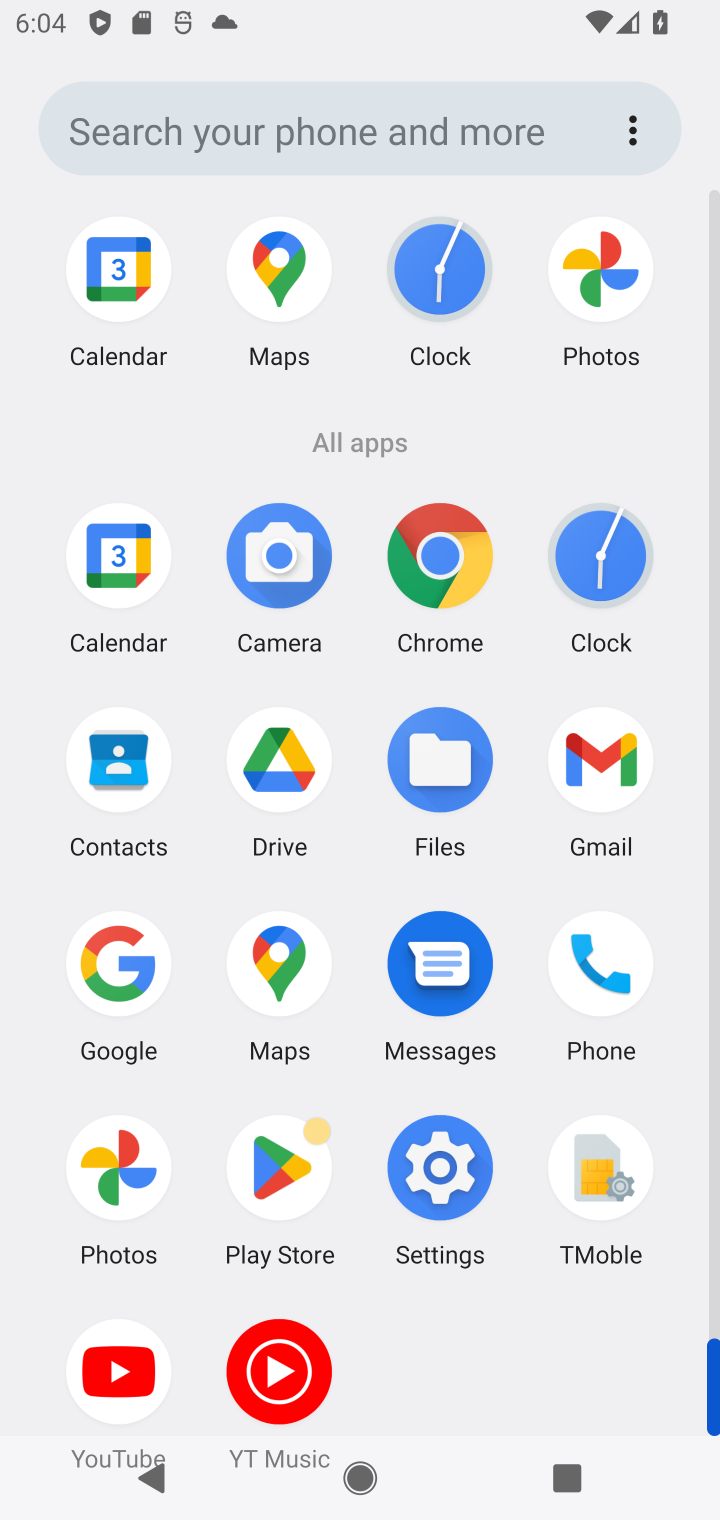
Step 30: click (629, 566)
Your task to perform on an android device: change timer sound Image 31: 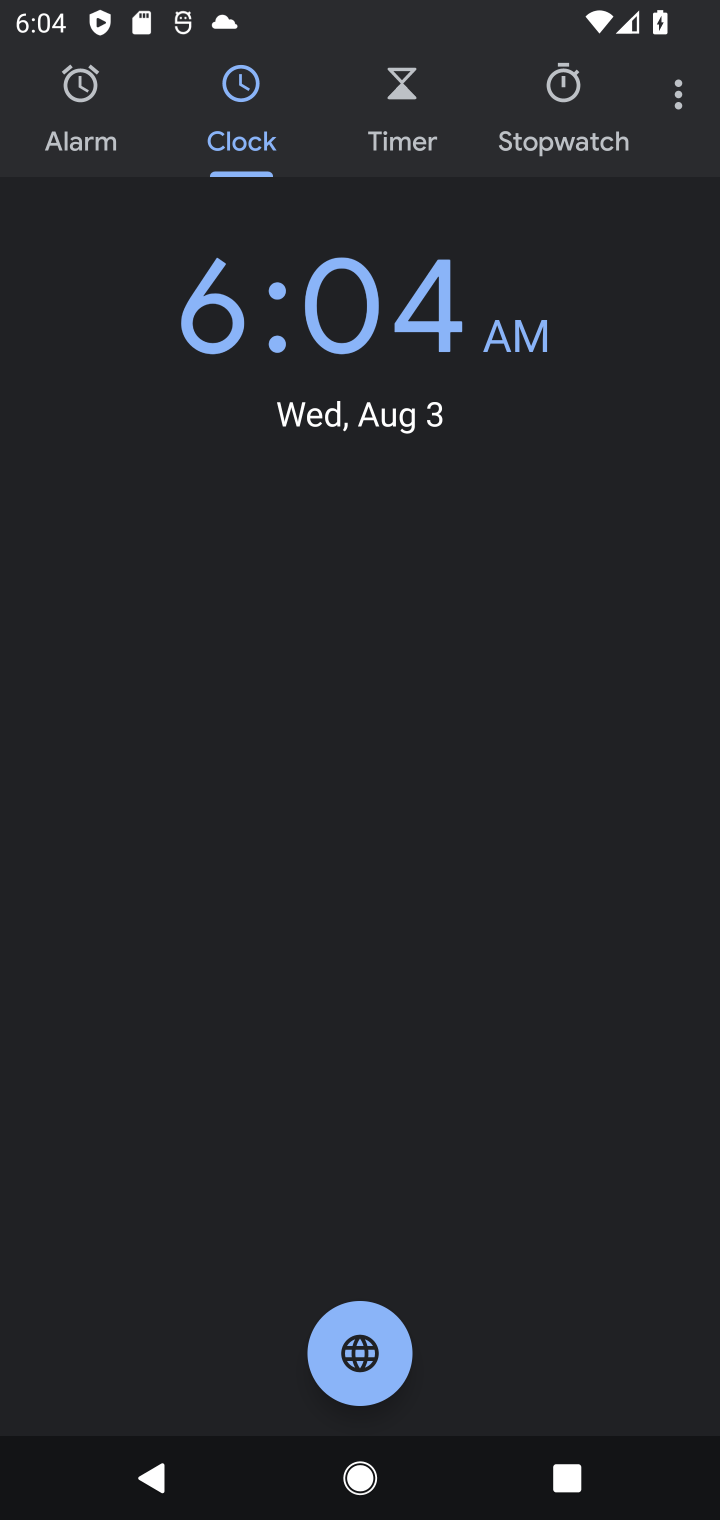
Step 31: click (660, 91)
Your task to perform on an android device: change timer sound Image 32: 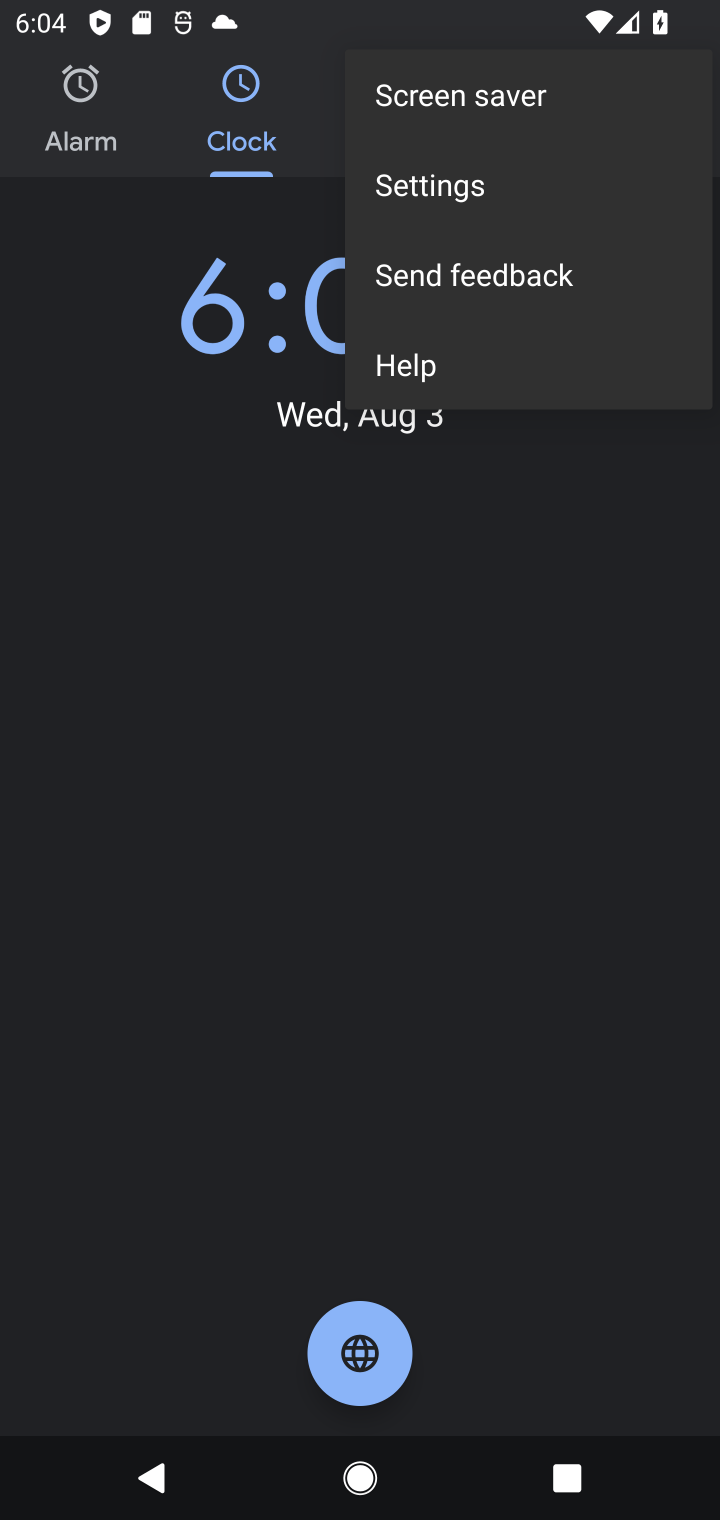
Step 32: click (471, 190)
Your task to perform on an android device: change timer sound Image 33: 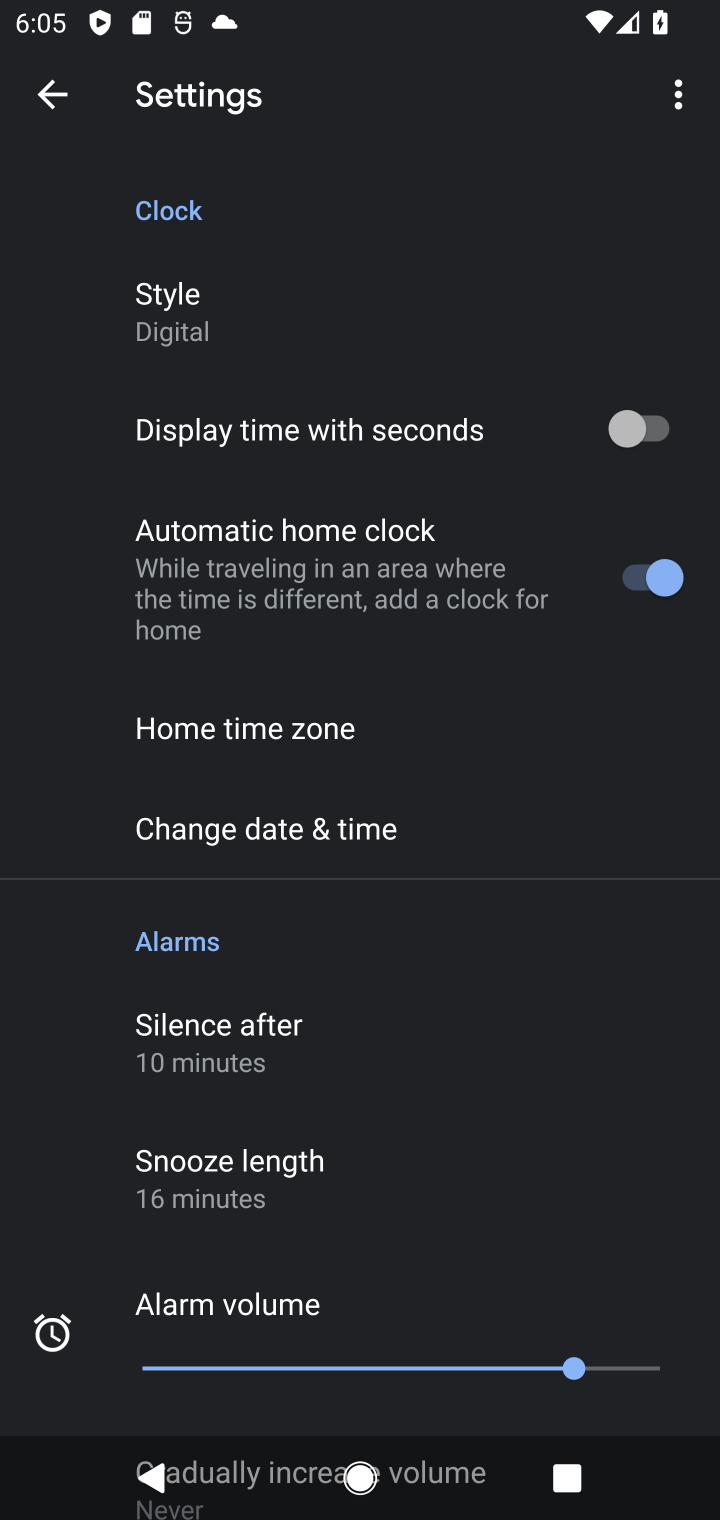
Step 33: drag from (379, 1258) to (522, 418)
Your task to perform on an android device: change timer sound Image 34: 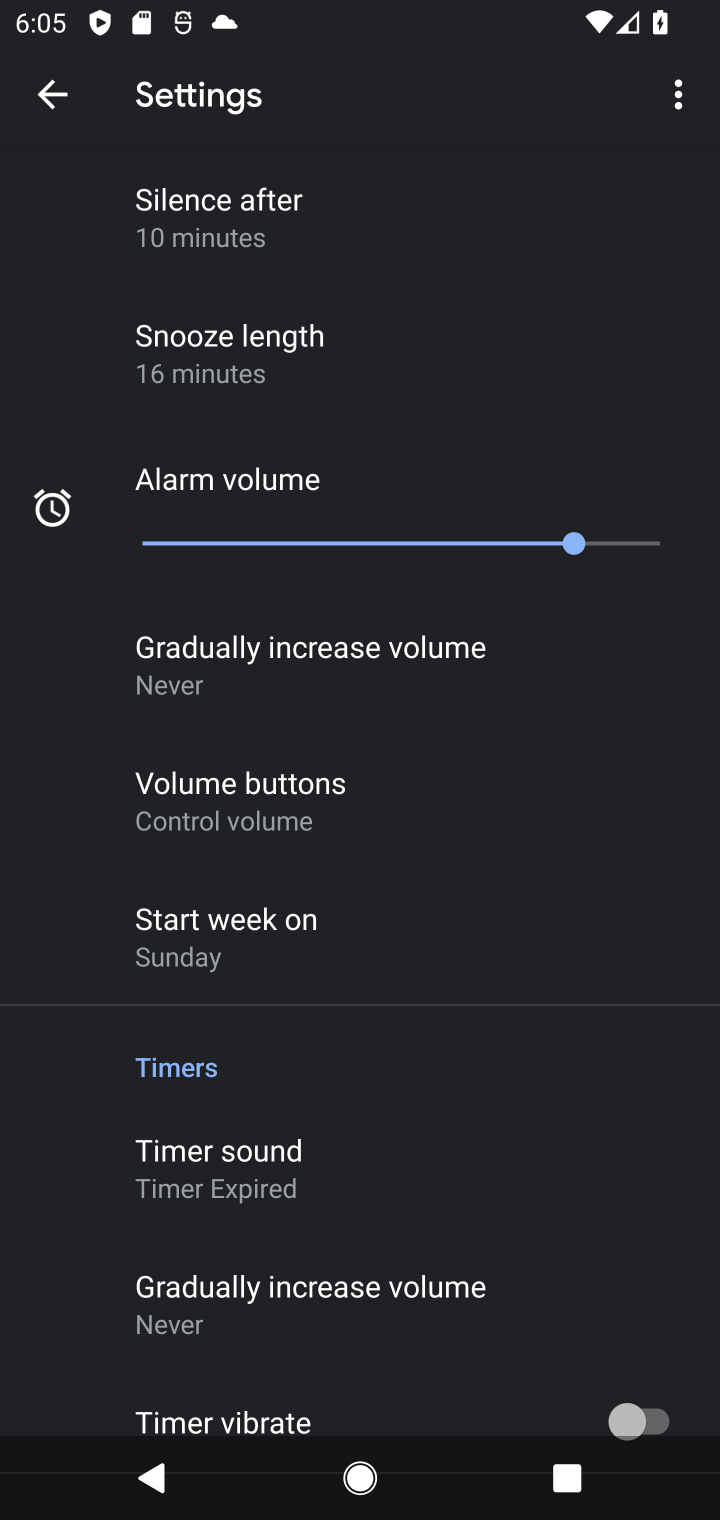
Step 34: click (246, 1180)
Your task to perform on an android device: change timer sound Image 35: 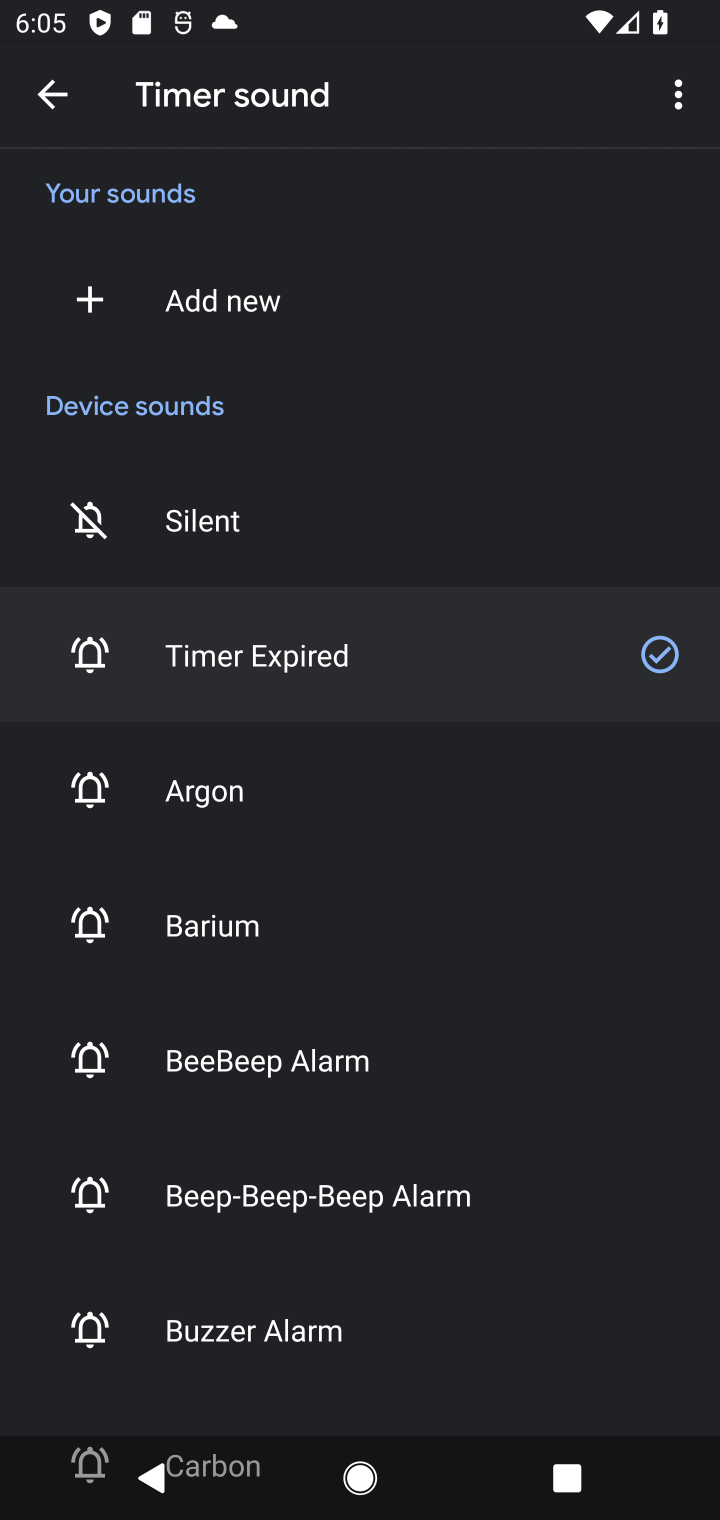
Step 35: click (200, 820)
Your task to perform on an android device: change timer sound Image 36: 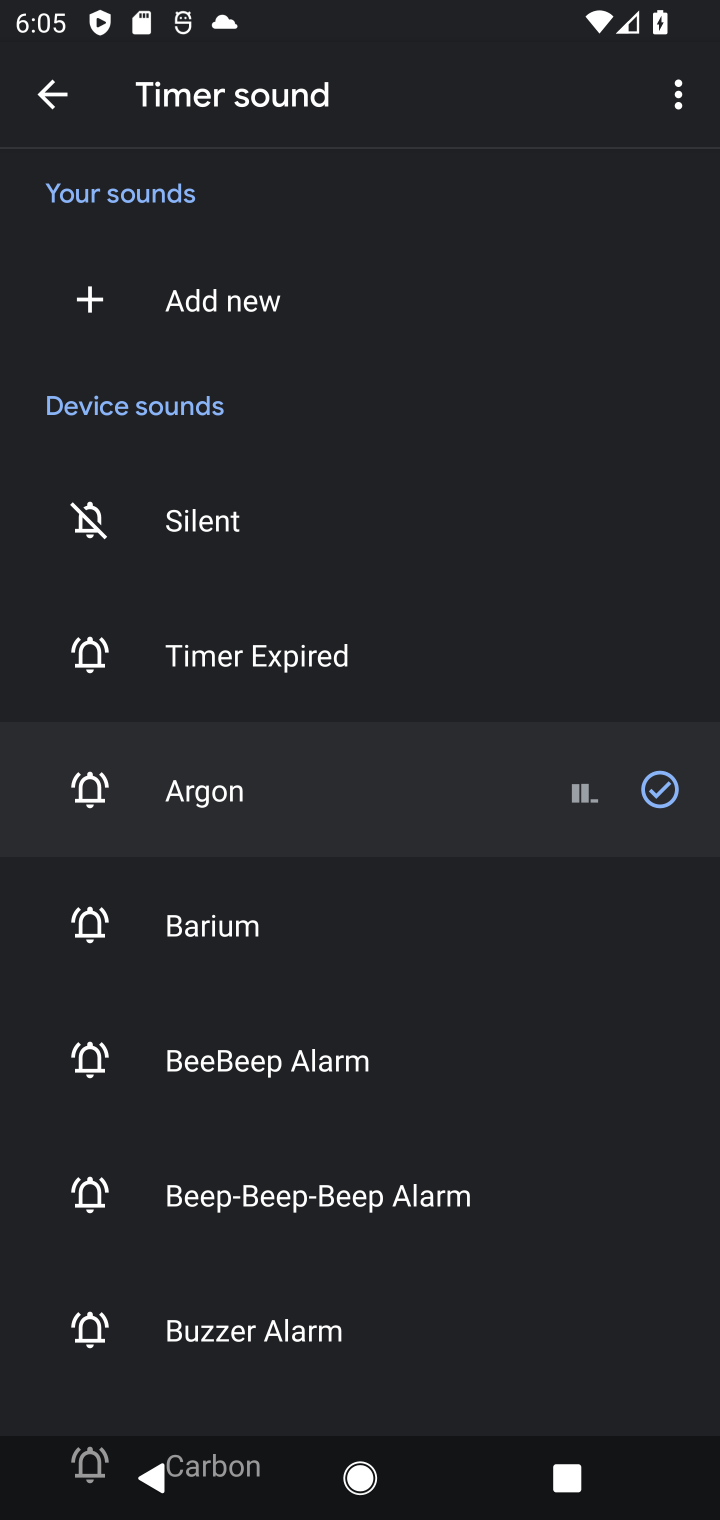
Step 36: task complete